Your task to perform on an android device: Search for hotels in Seattle Image 0: 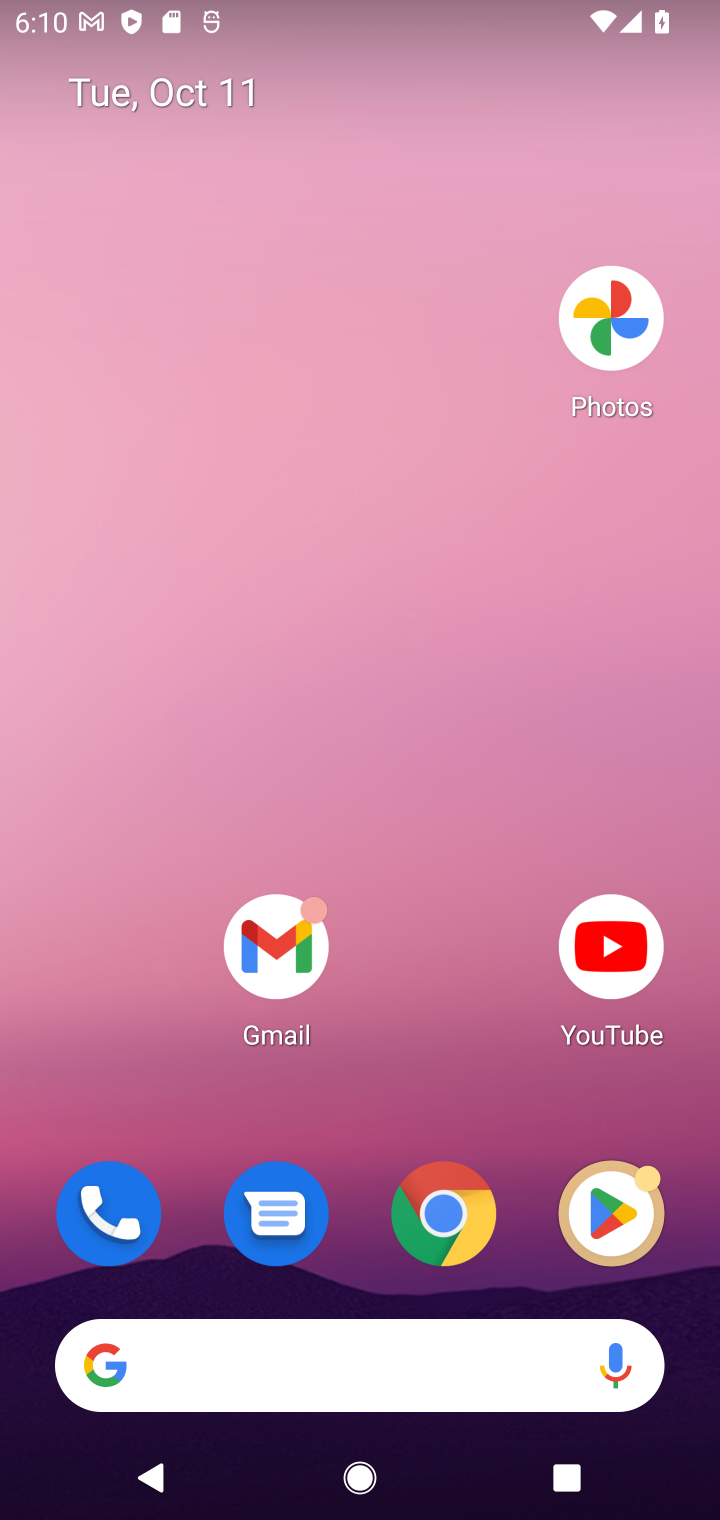
Step 0: click (443, 1232)
Your task to perform on an android device: Search for hotels in Seattle Image 1: 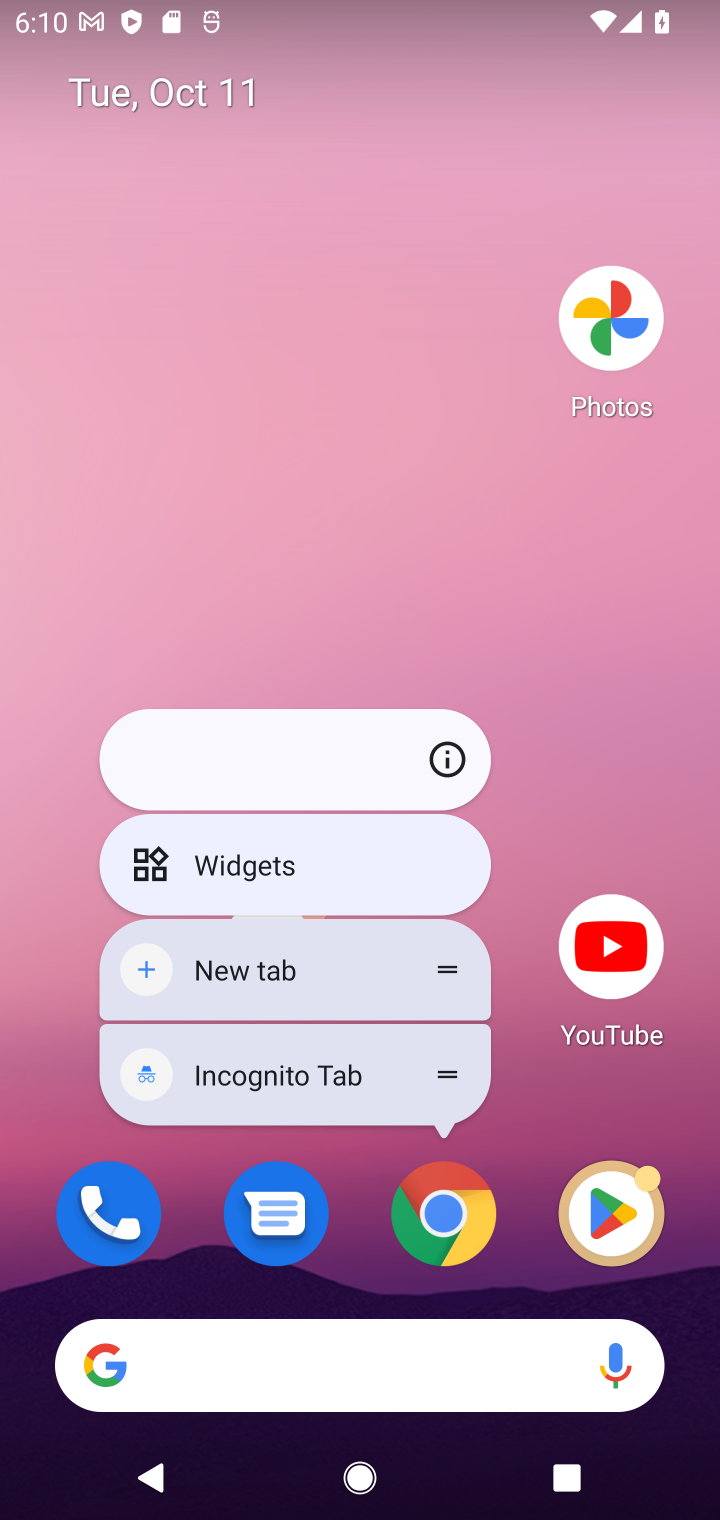
Step 1: click (471, 1259)
Your task to perform on an android device: Search for hotels in Seattle Image 2: 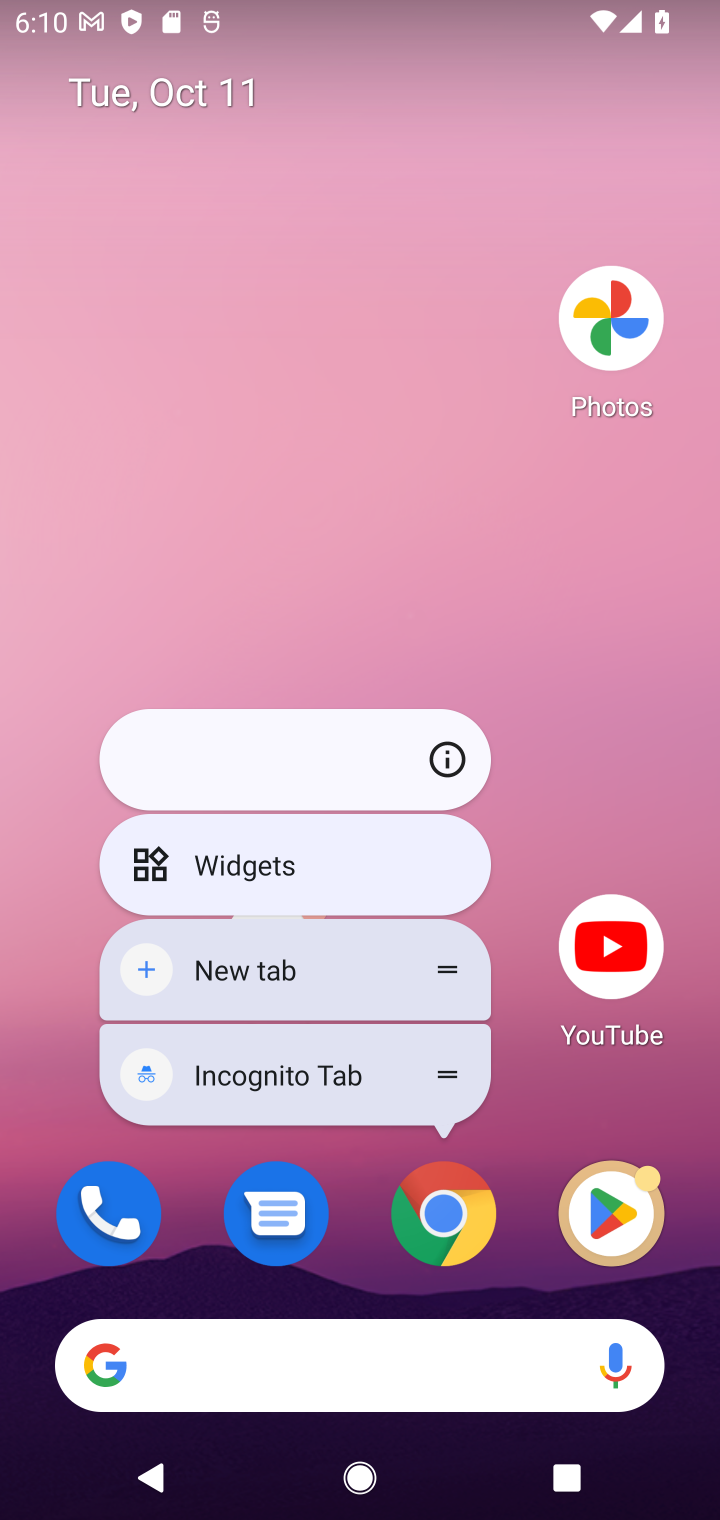
Step 2: click (444, 1245)
Your task to perform on an android device: Search for hotels in Seattle Image 3: 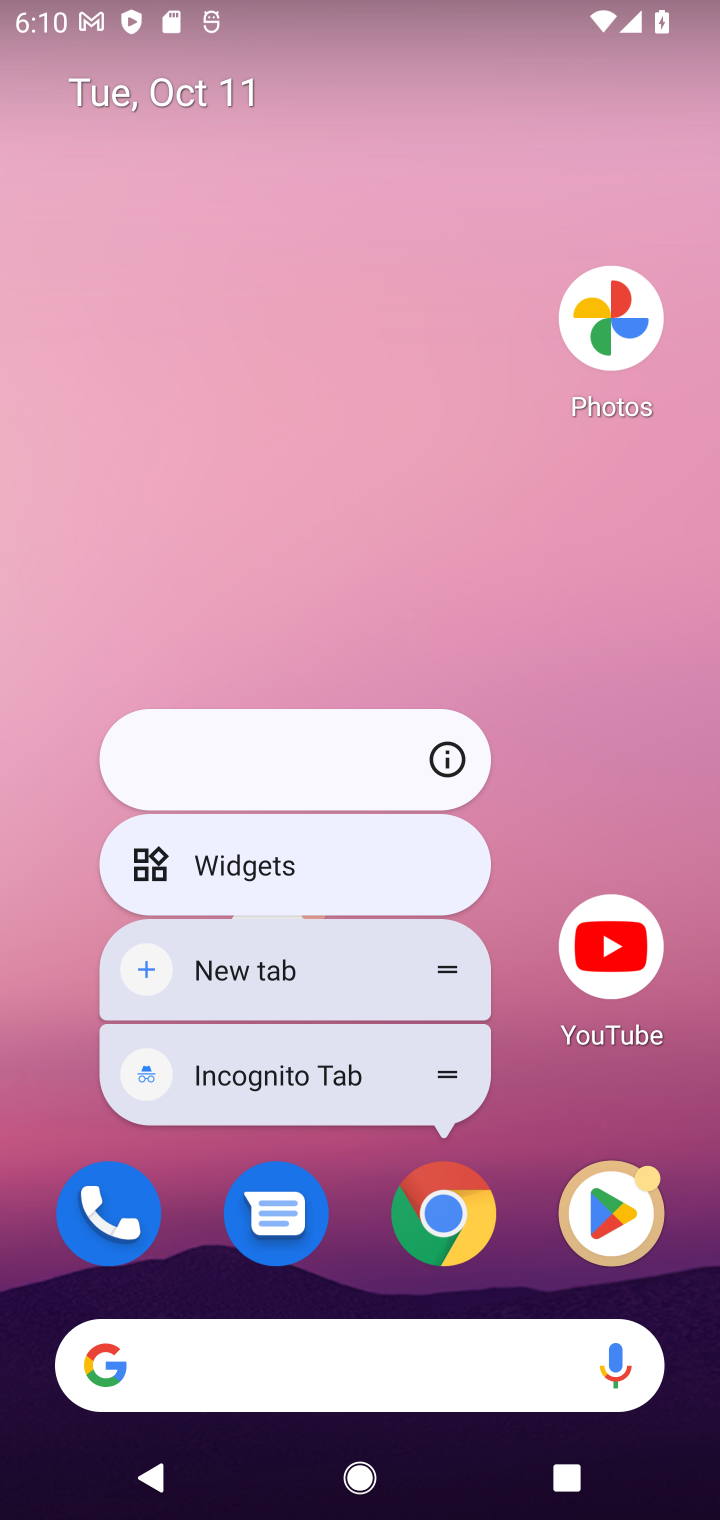
Step 3: click (380, 1312)
Your task to perform on an android device: Search for hotels in Seattle Image 4: 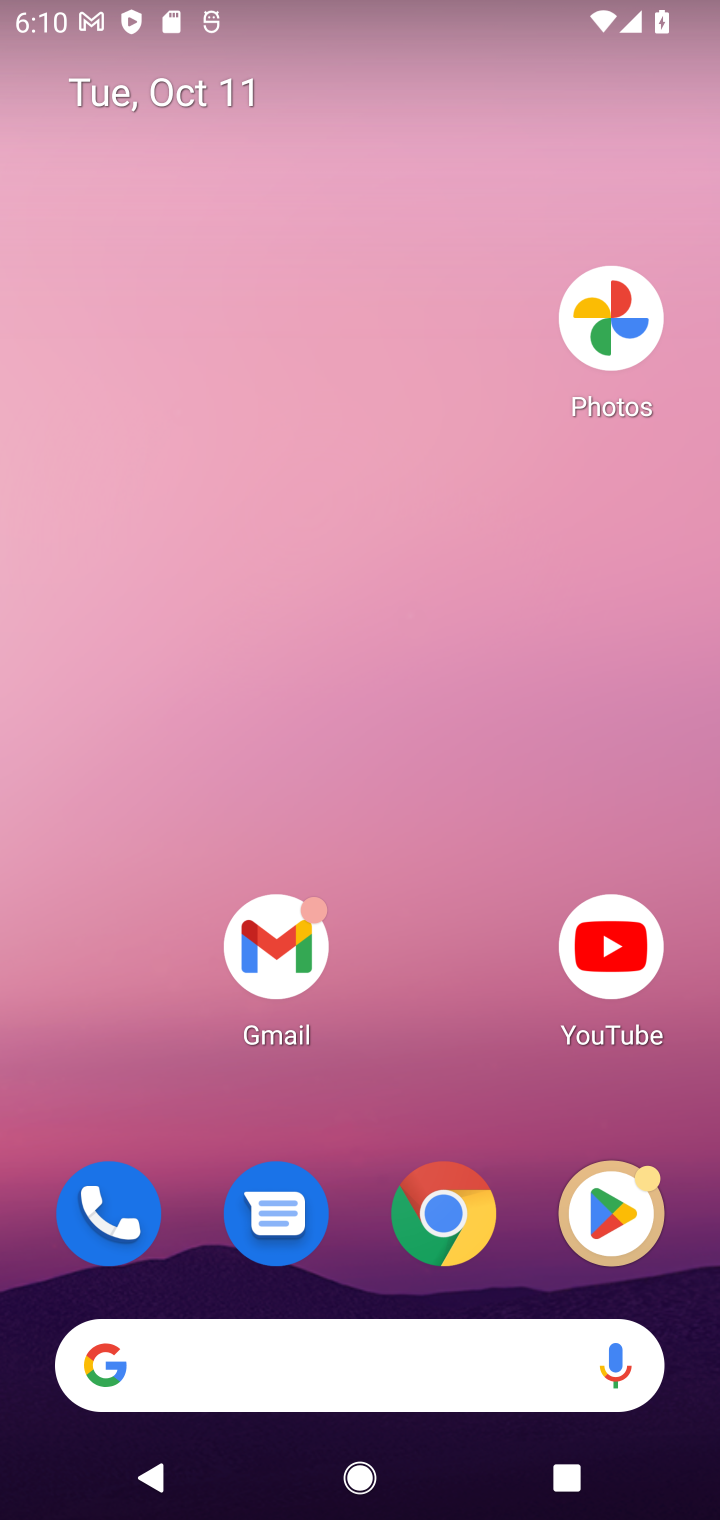
Step 4: drag from (388, 1201) to (503, 21)
Your task to perform on an android device: Search for hotels in Seattle Image 5: 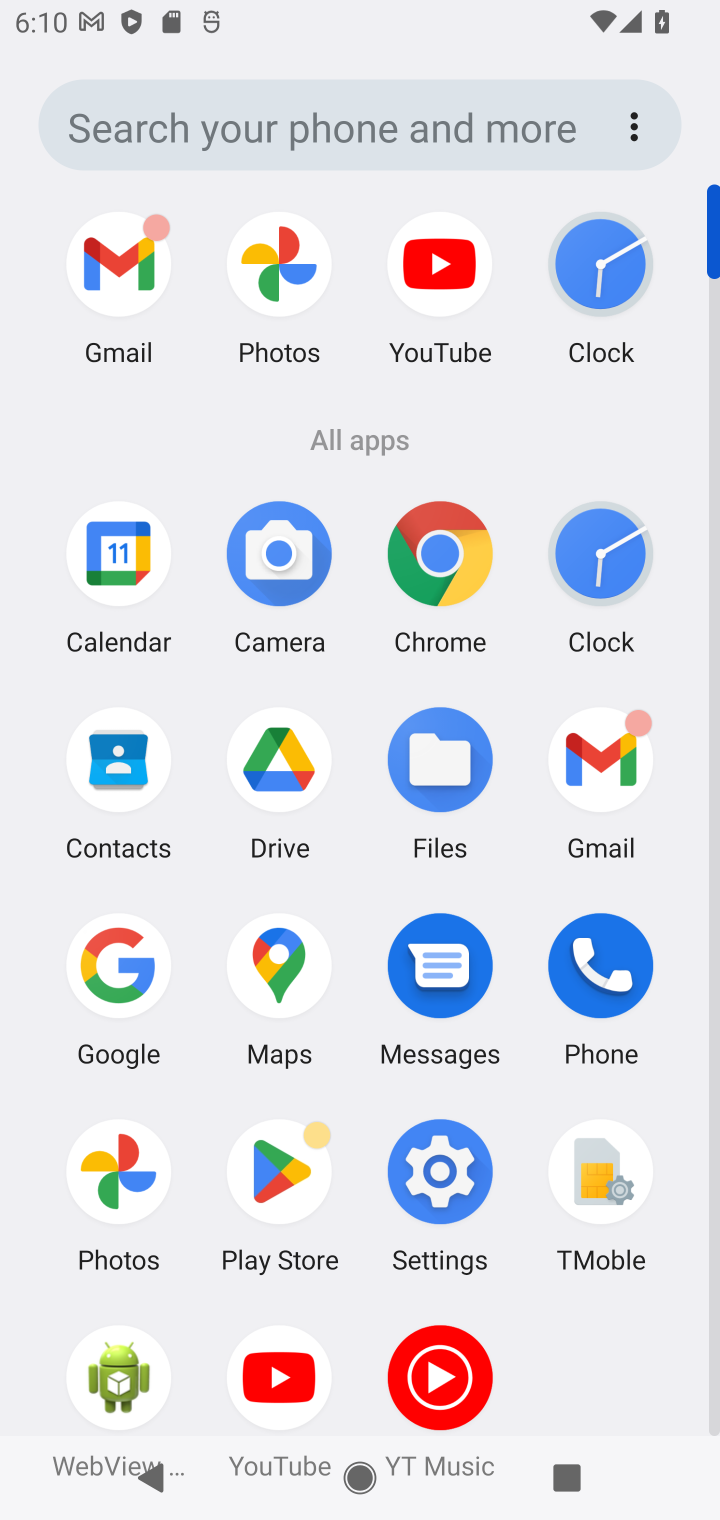
Step 5: click (436, 554)
Your task to perform on an android device: Search for hotels in Seattle Image 6: 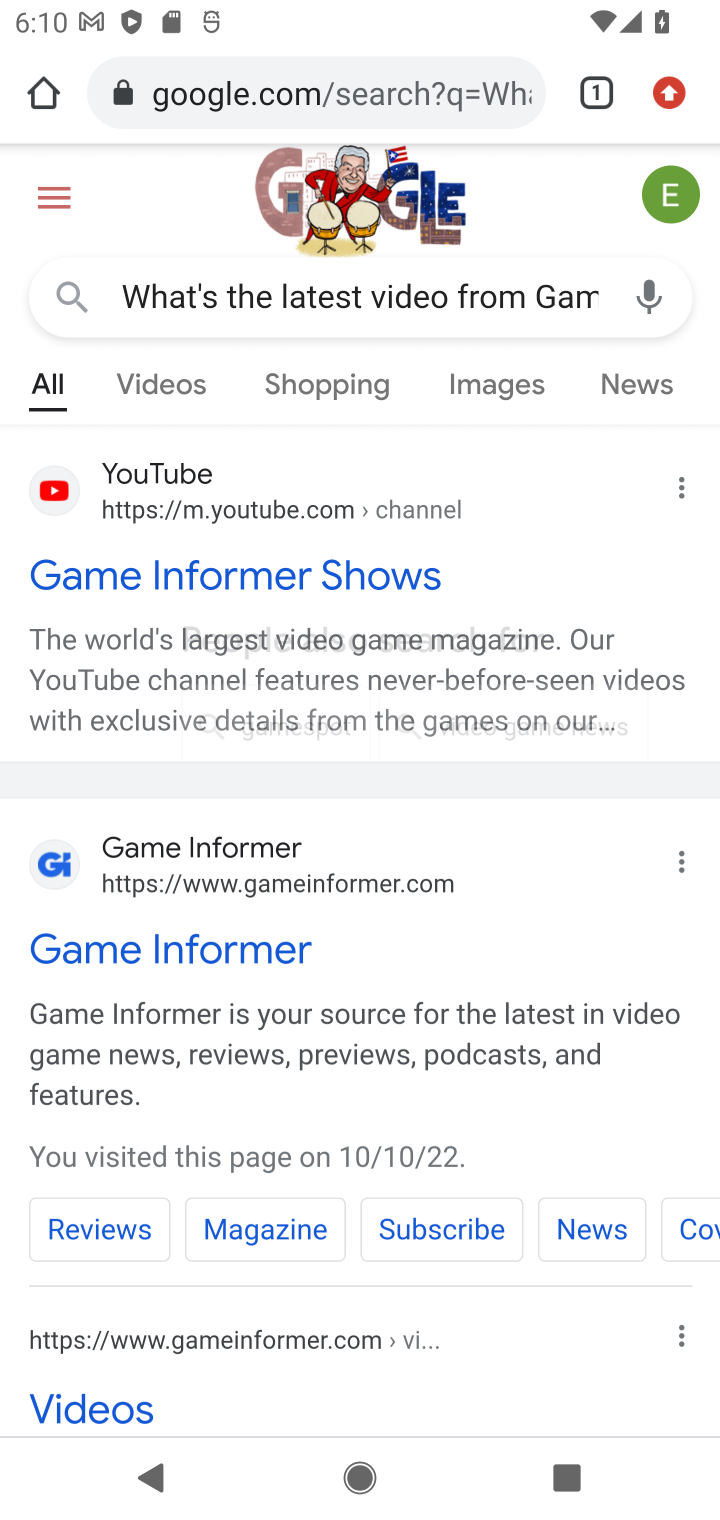
Step 6: click (319, 101)
Your task to perform on an android device: Search for hotels in Seattle Image 7: 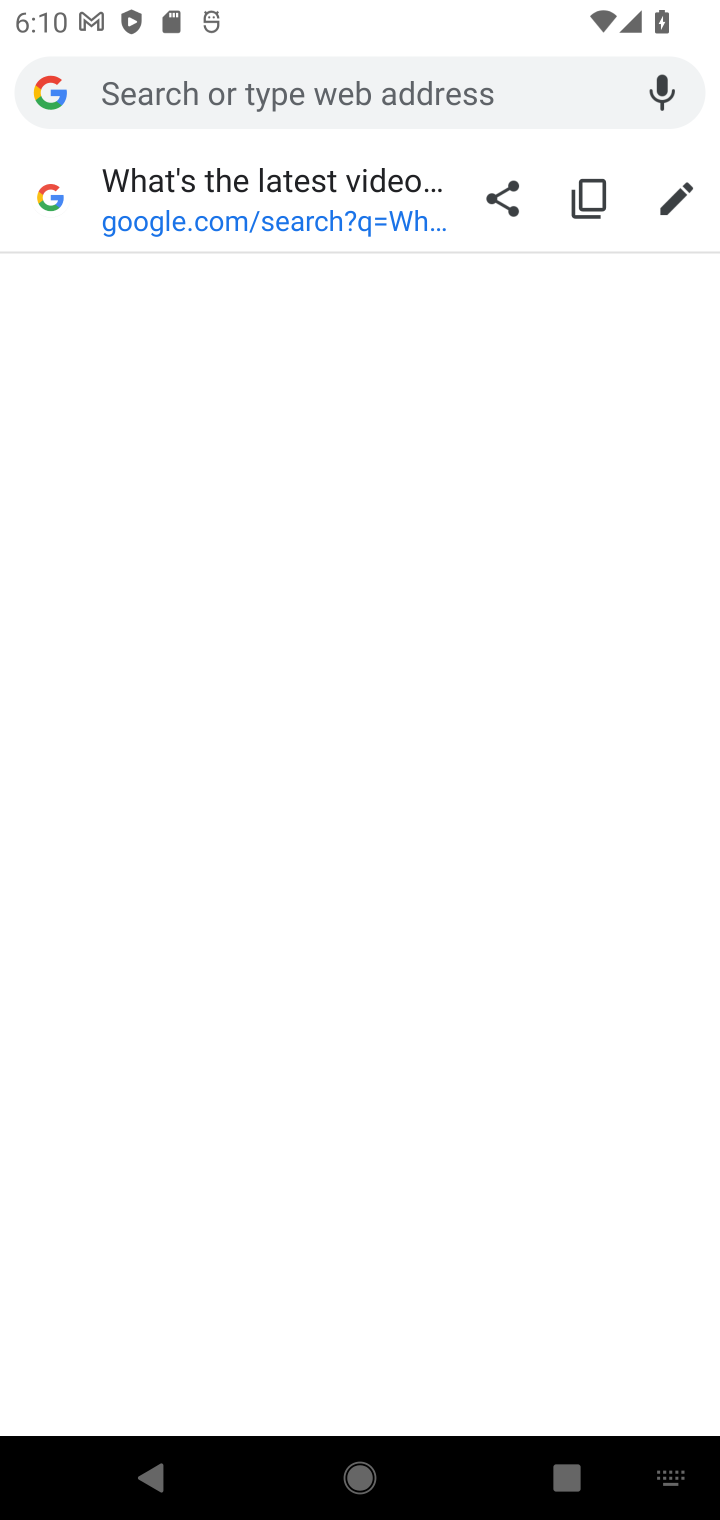
Step 7: type ""
Your task to perform on an android device: Search for hotels in Seattle Image 8: 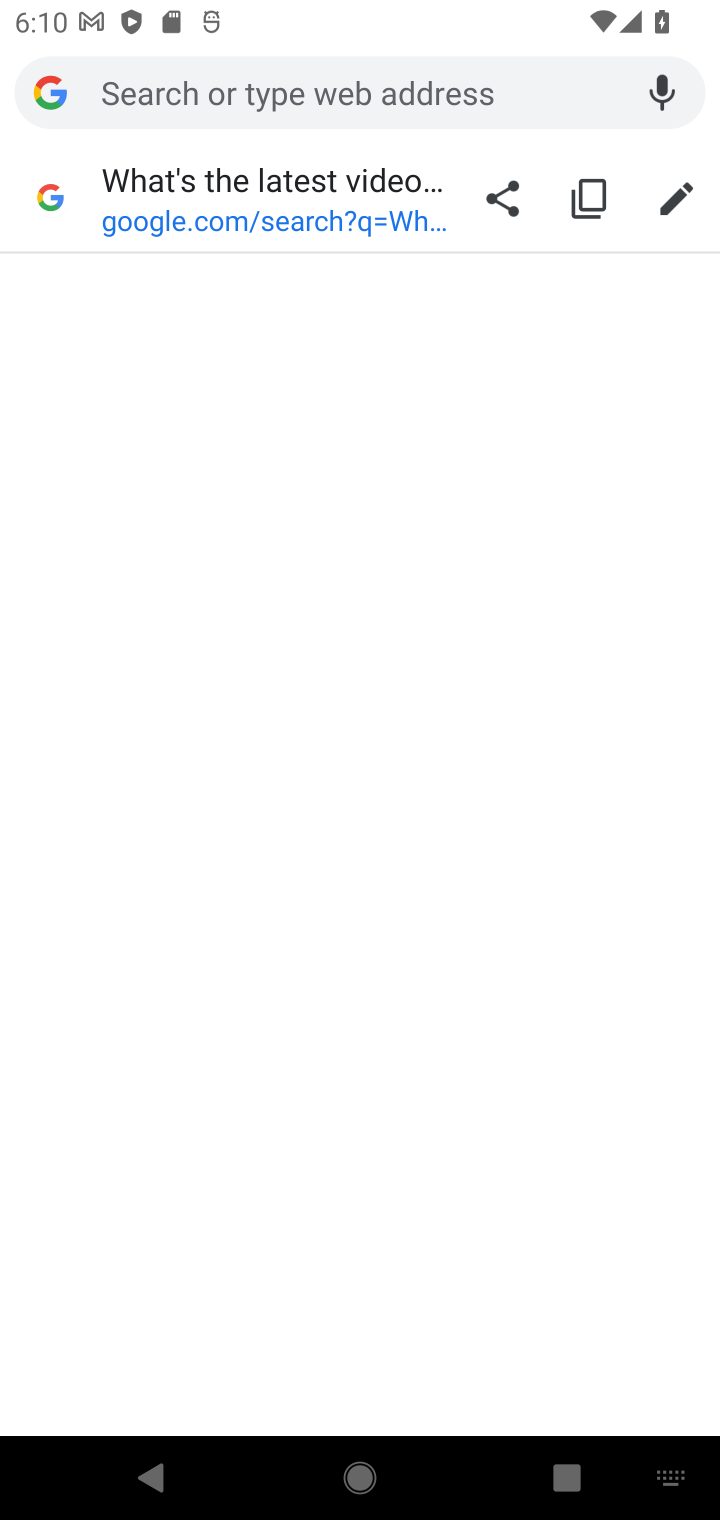
Step 8: type "hotels in Seattle"
Your task to perform on an android device: Search for hotels in Seattle Image 9: 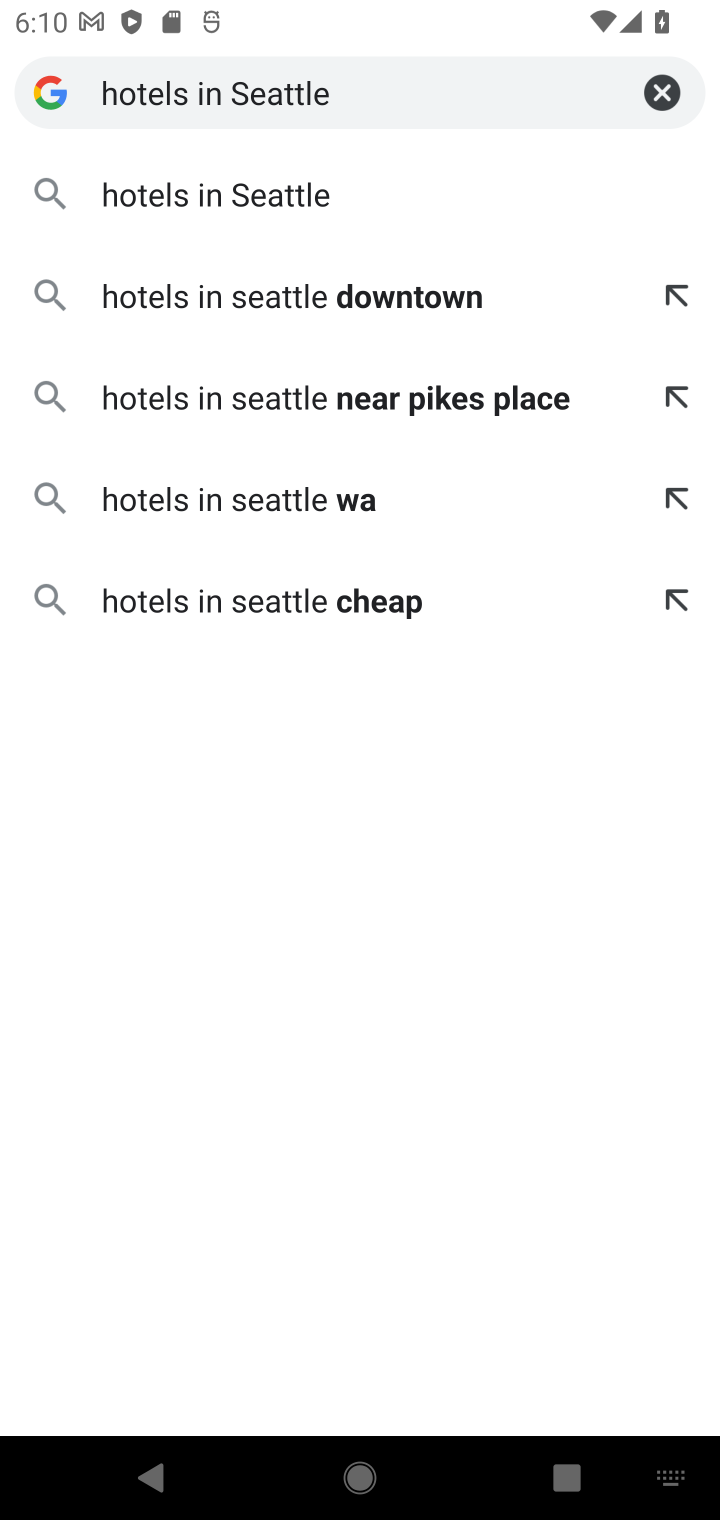
Step 9: click (291, 191)
Your task to perform on an android device: Search for hotels in Seattle Image 10: 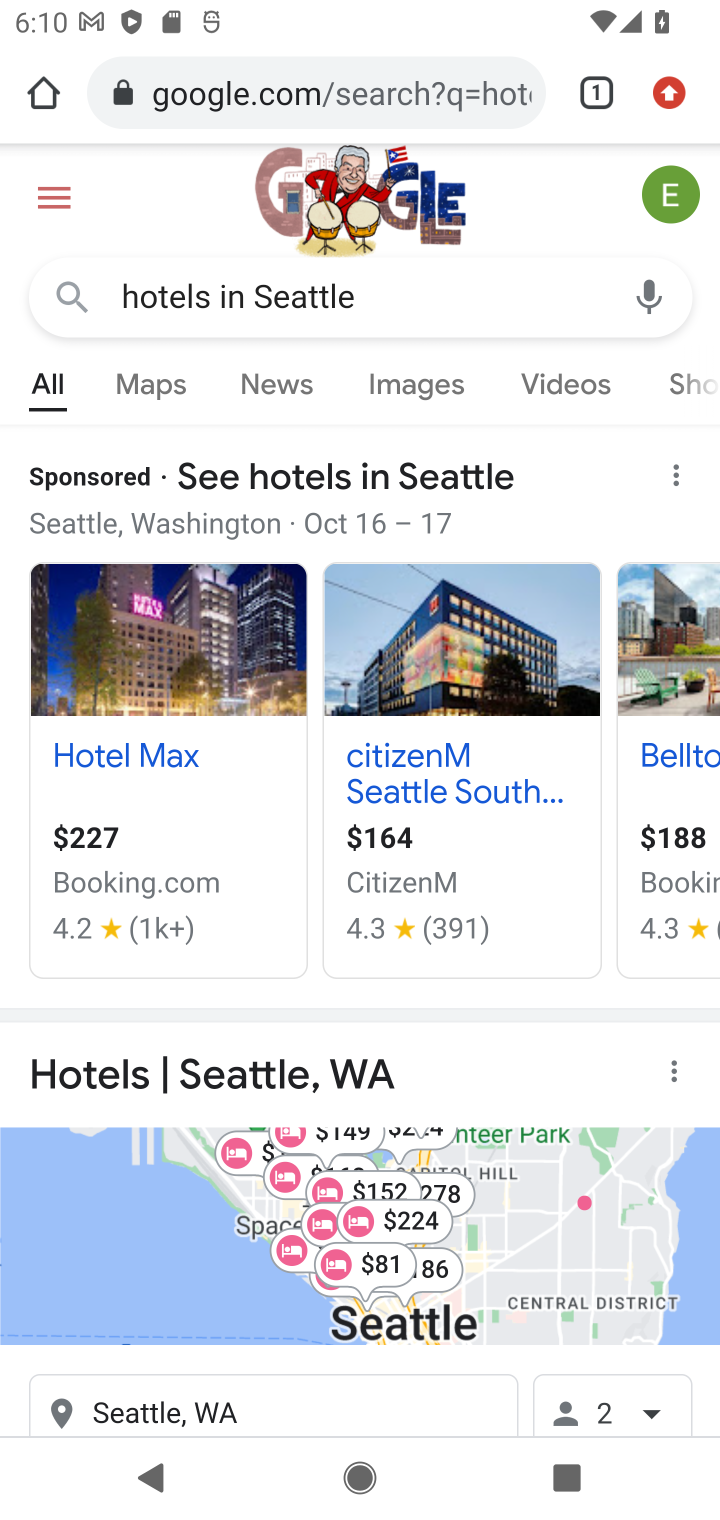
Step 10: drag from (247, 1048) to (261, 373)
Your task to perform on an android device: Search for hotels in Seattle Image 11: 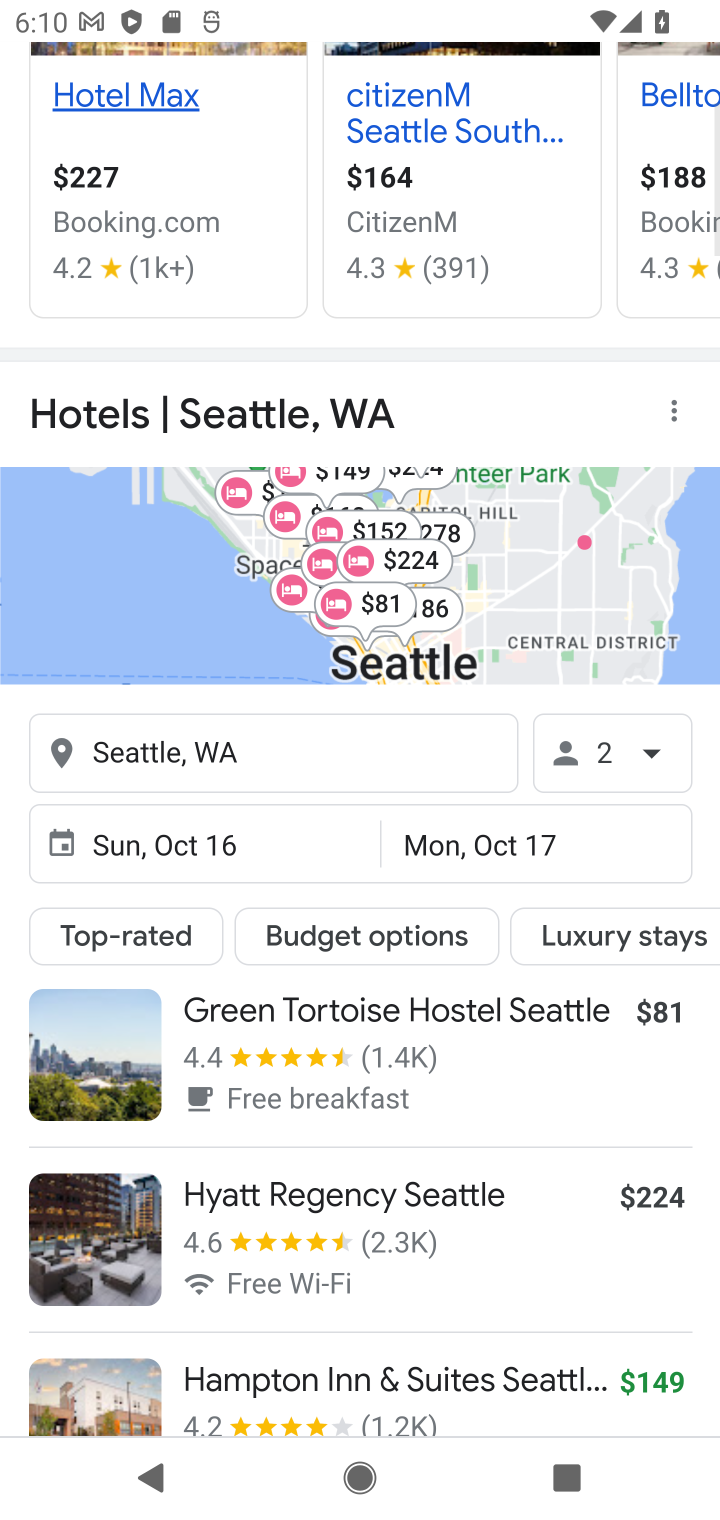
Step 11: click (266, 1002)
Your task to perform on an android device: Search for hotels in Seattle Image 12: 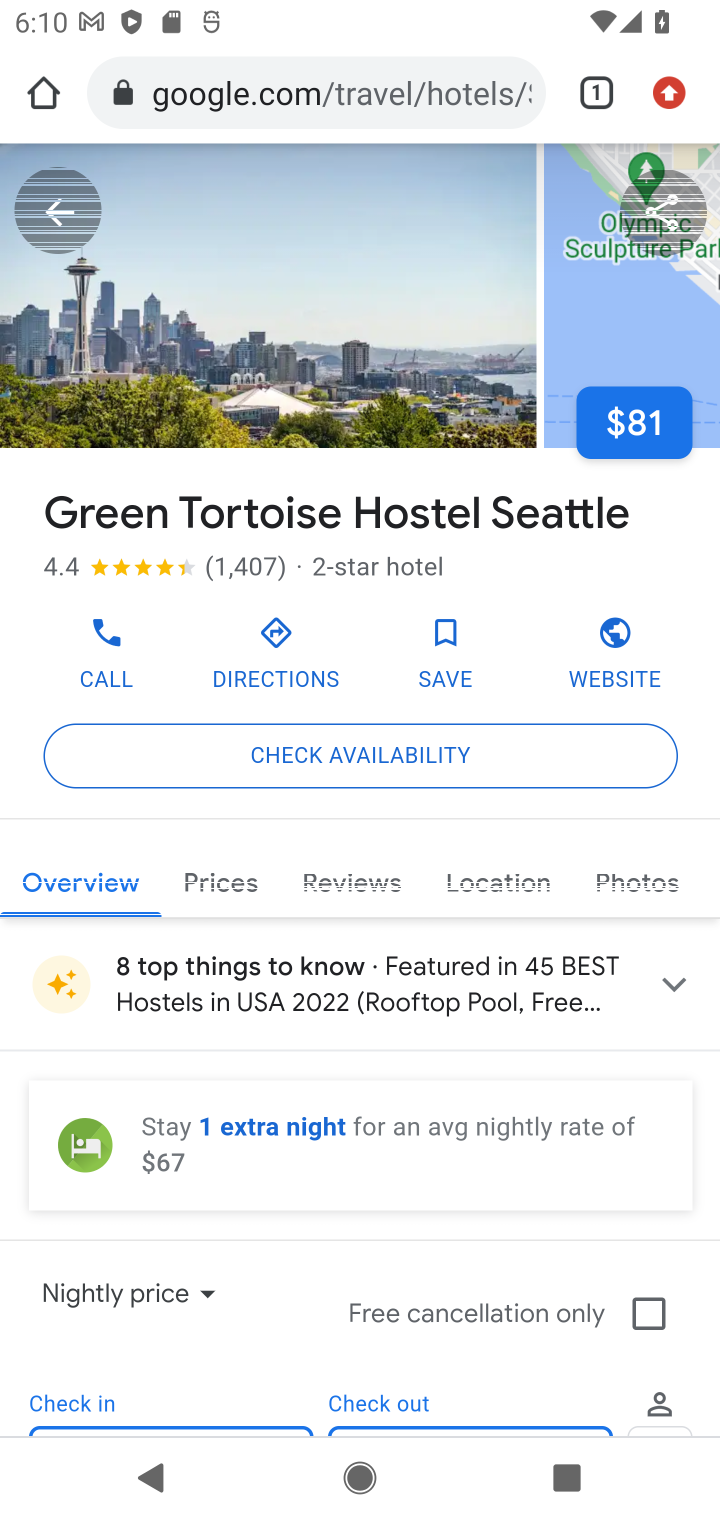
Step 12: drag from (448, 1149) to (471, 512)
Your task to perform on an android device: Search for hotels in Seattle Image 13: 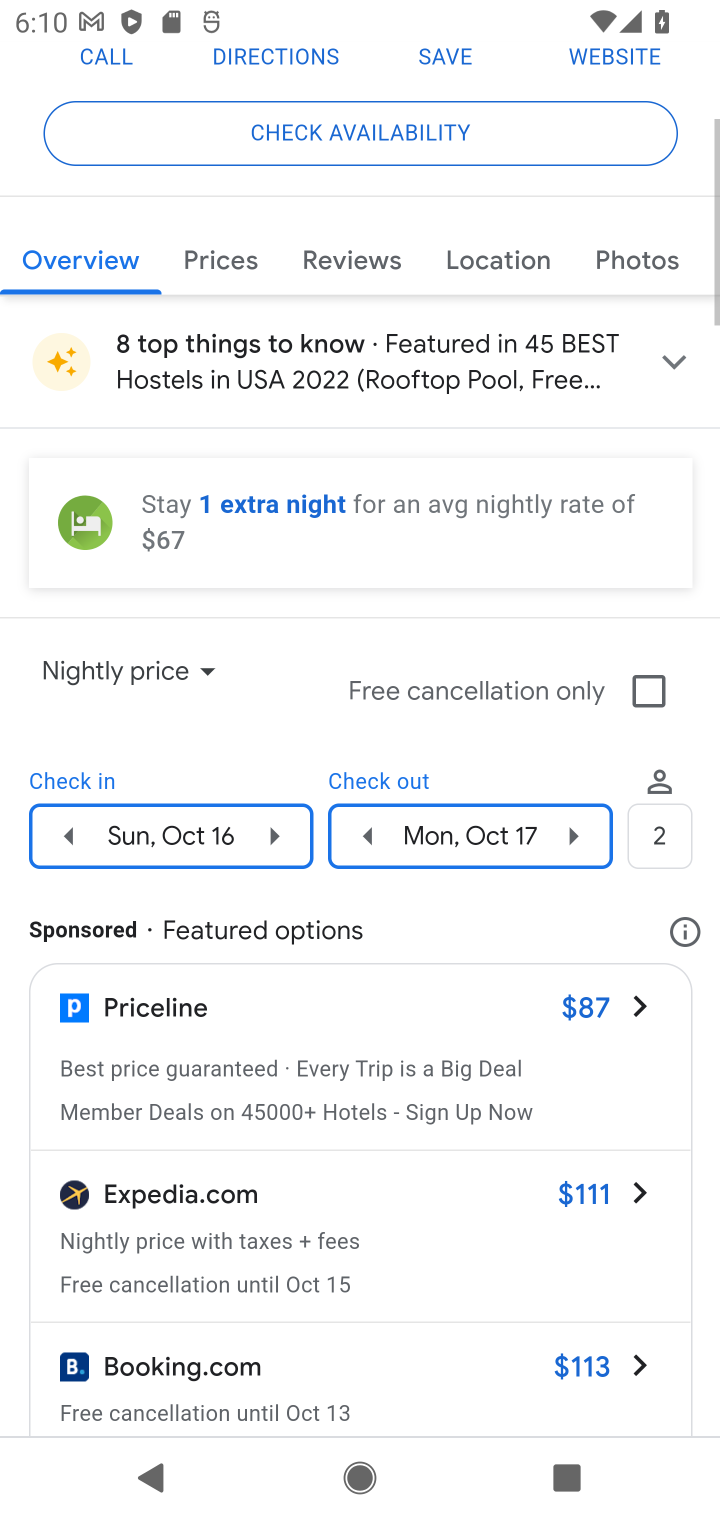
Step 13: drag from (395, 223) to (464, 498)
Your task to perform on an android device: Search for hotels in Seattle Image 14: 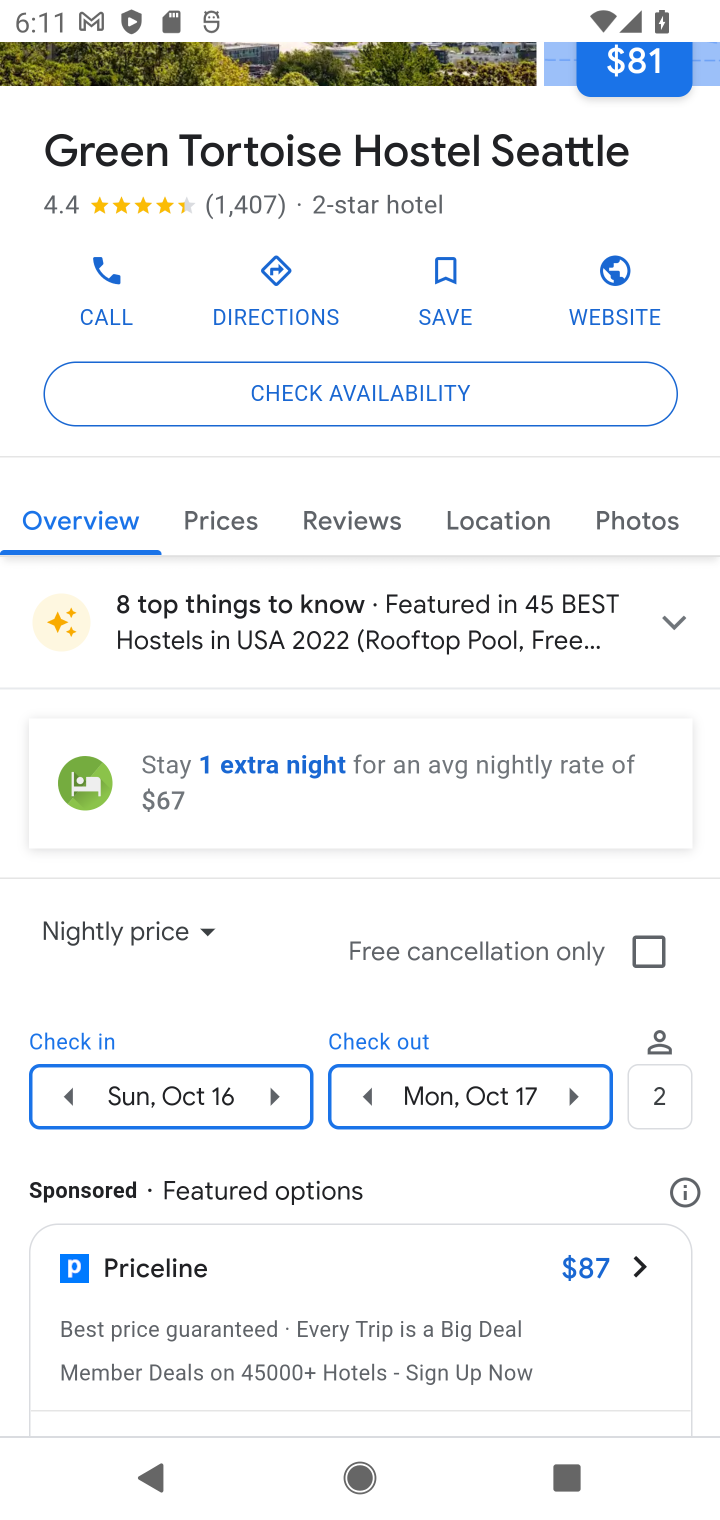
Step 14: drag from (433, 598) to (414, 1197)
Your task to perform on an android device: Search for hotels in Seattle Image 15: 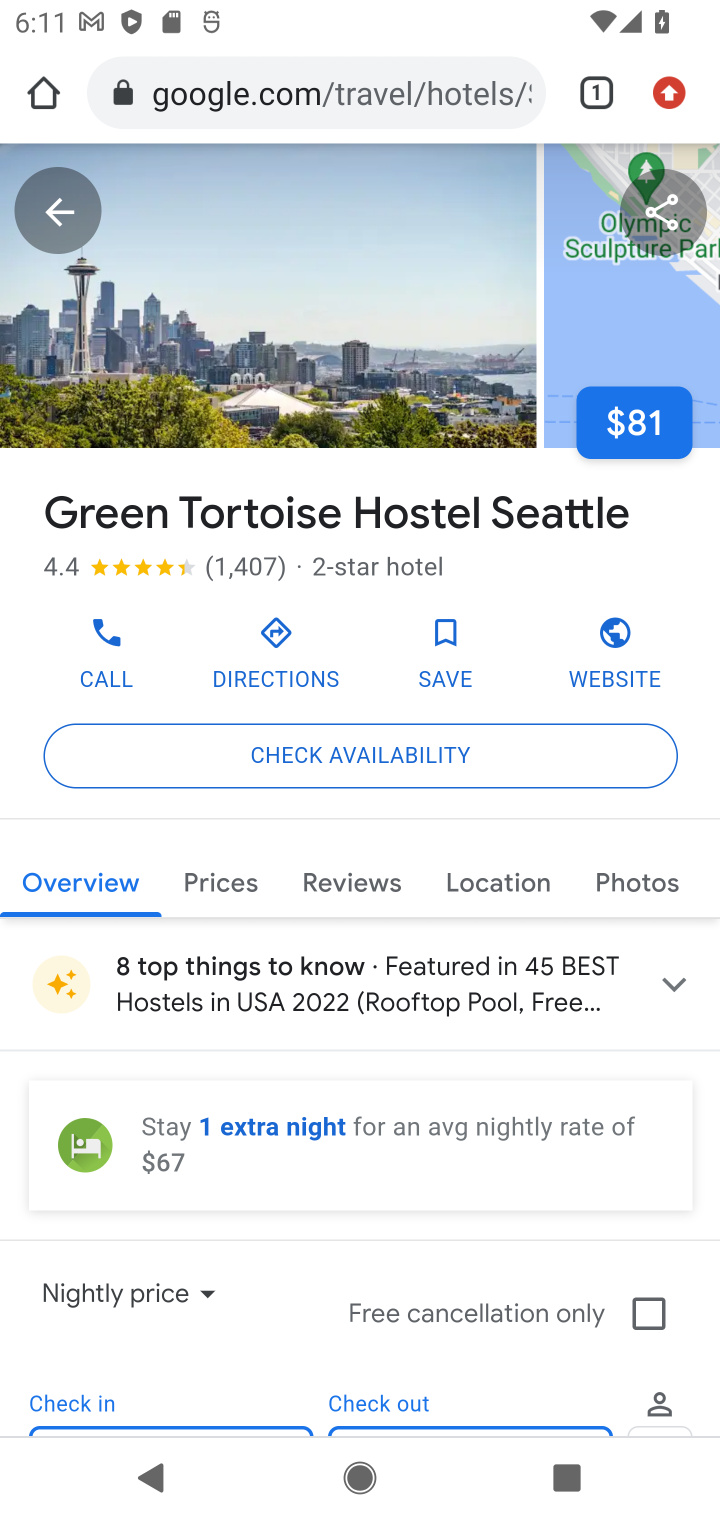
Step 15: click (293, 1336)
Your task to perform on an android device: Search for hotels in Seattle Image 16: 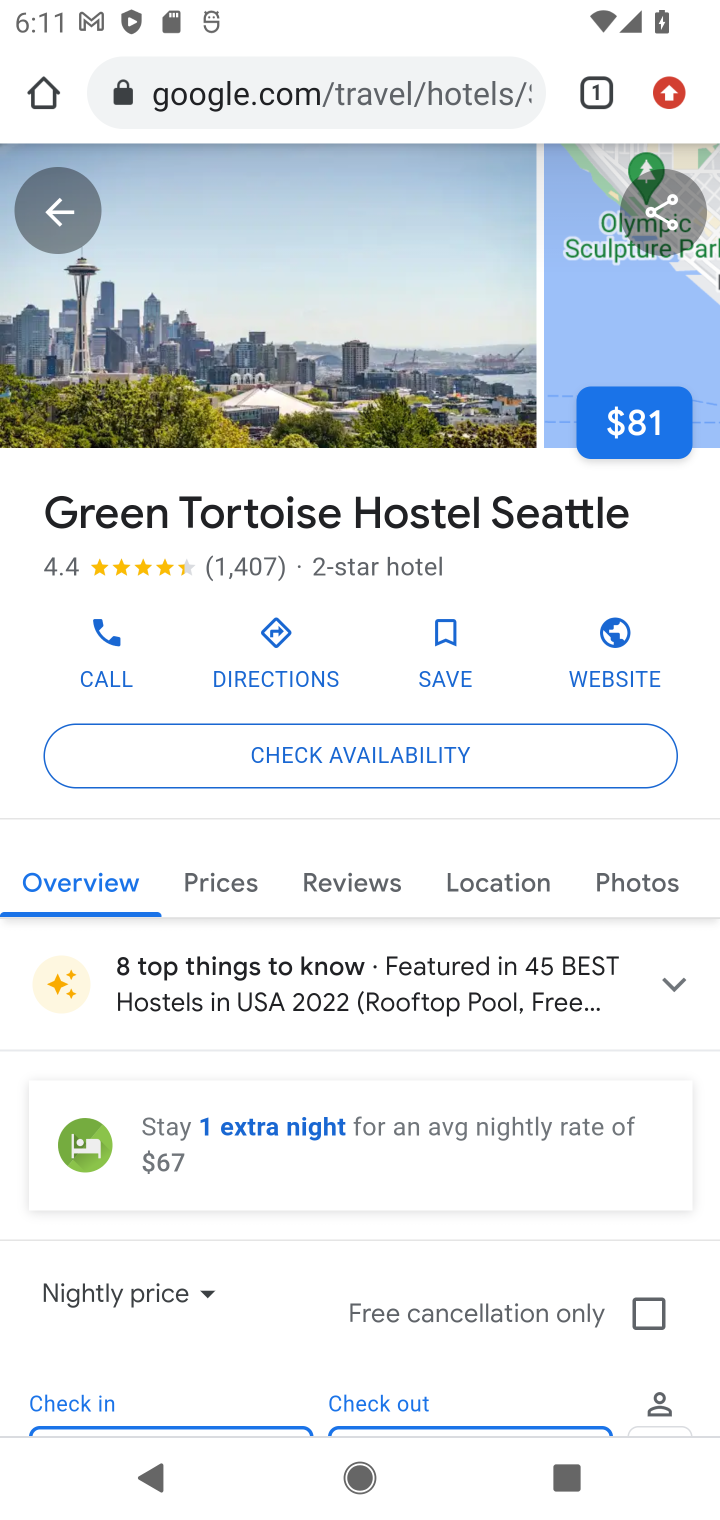
Step 16: drag from (496, 453) to (11, 436)
Your task to perform on an android device: Search for hotels in Seattle Image 17: 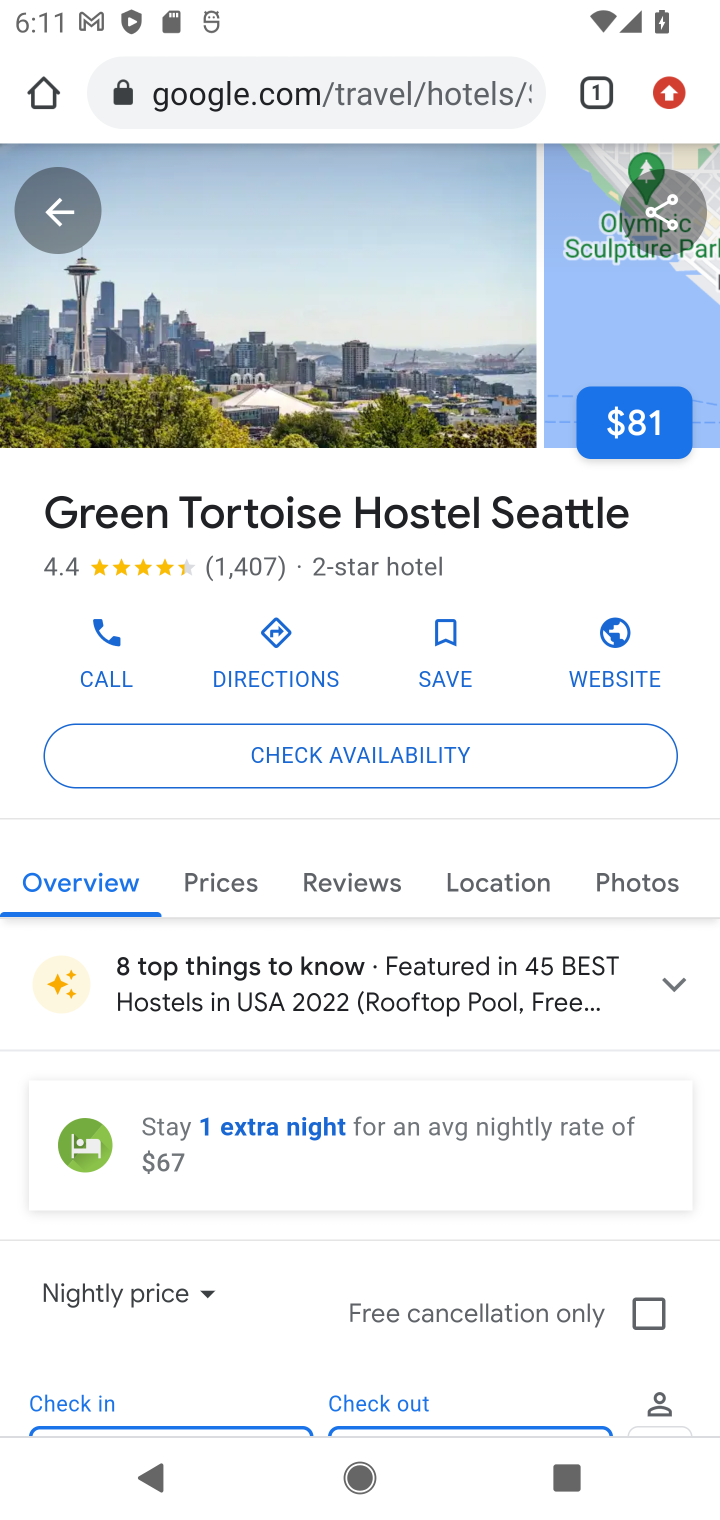
Step 17: drag from (49, 349) to (130, 365)
Your task to perform on an android device: Search for hotels in Seattle Image 18: 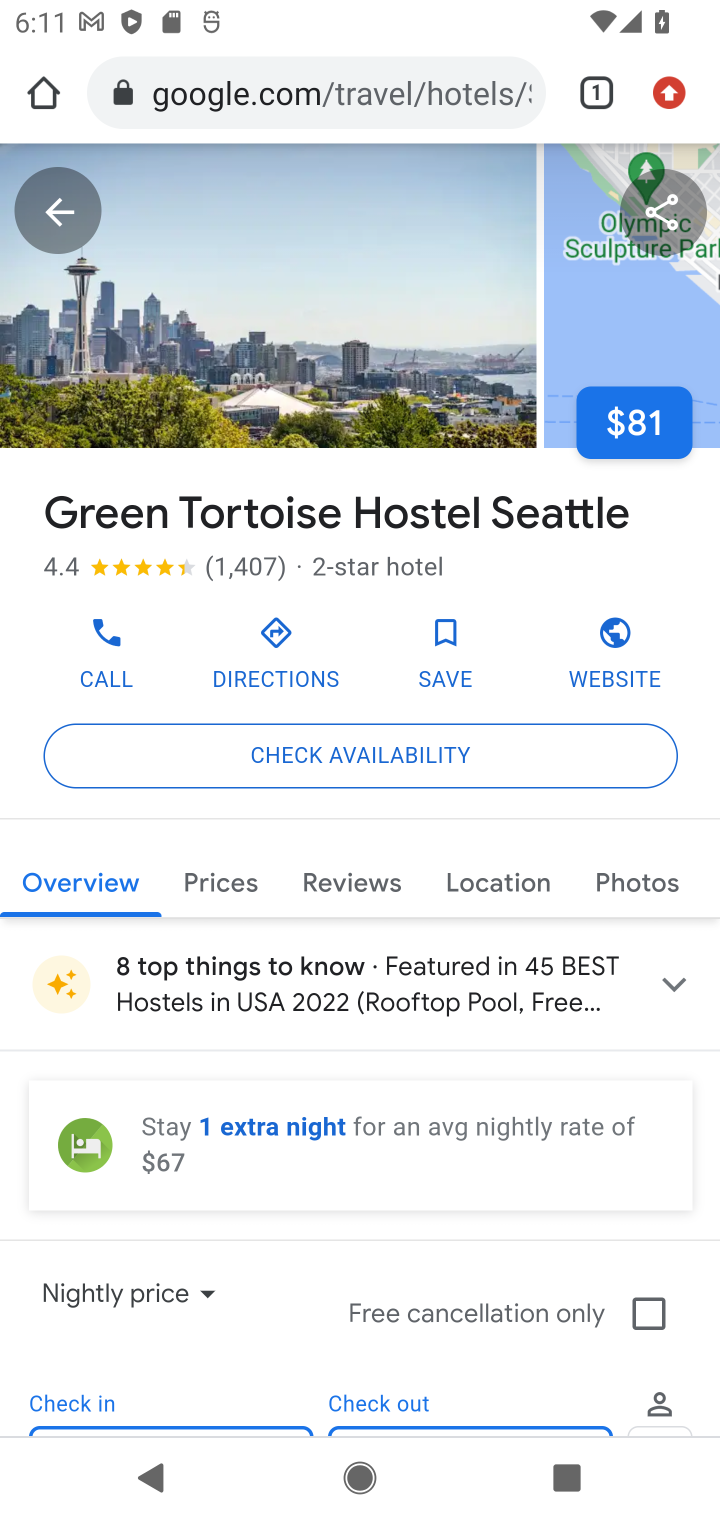
Step 18: drag from (357, 337) to (75, 344)
Your task to perform on an android device: Search for hotels in Seattle Image 19: 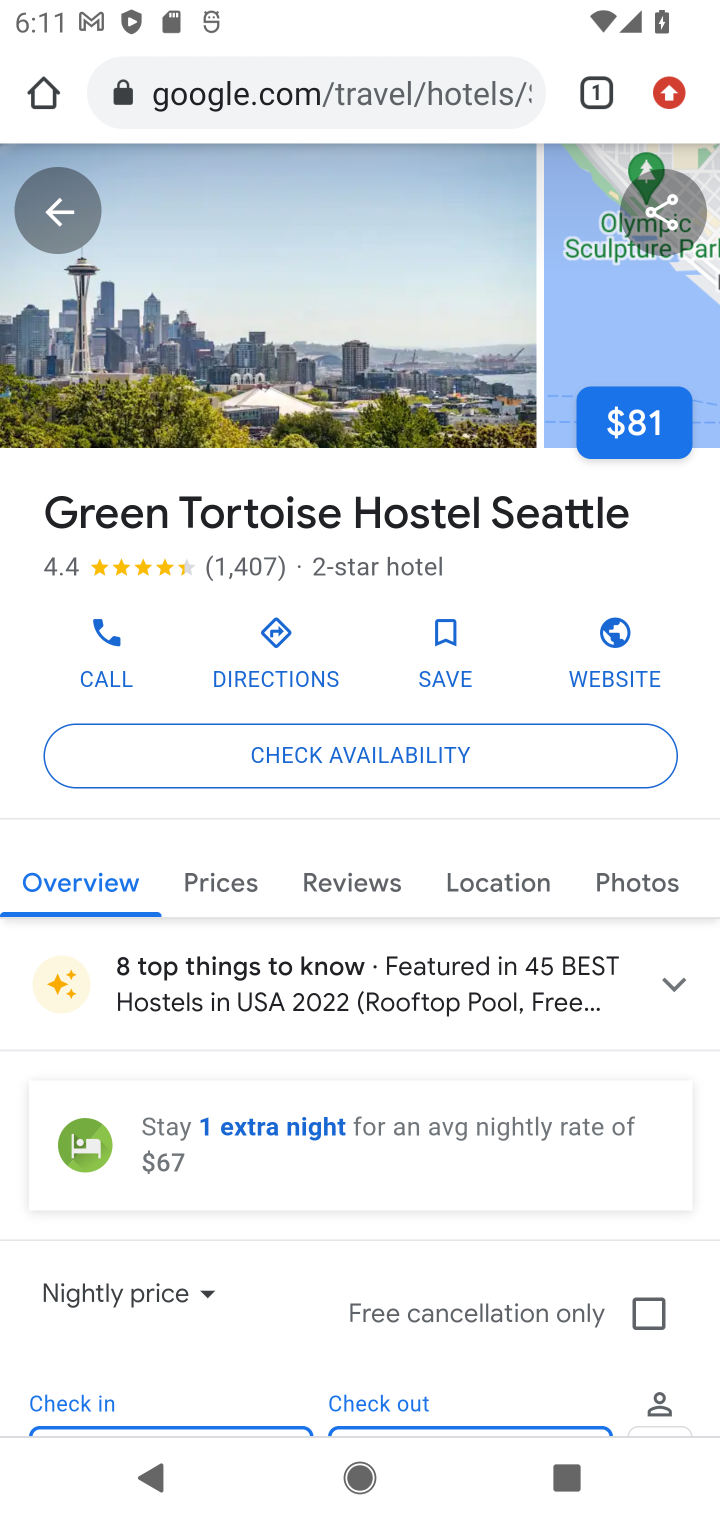
Step 19: drag from (334, 337) to (111, 342)
Your task to perform on an android device: Search for hotels in Seattle Image 20: 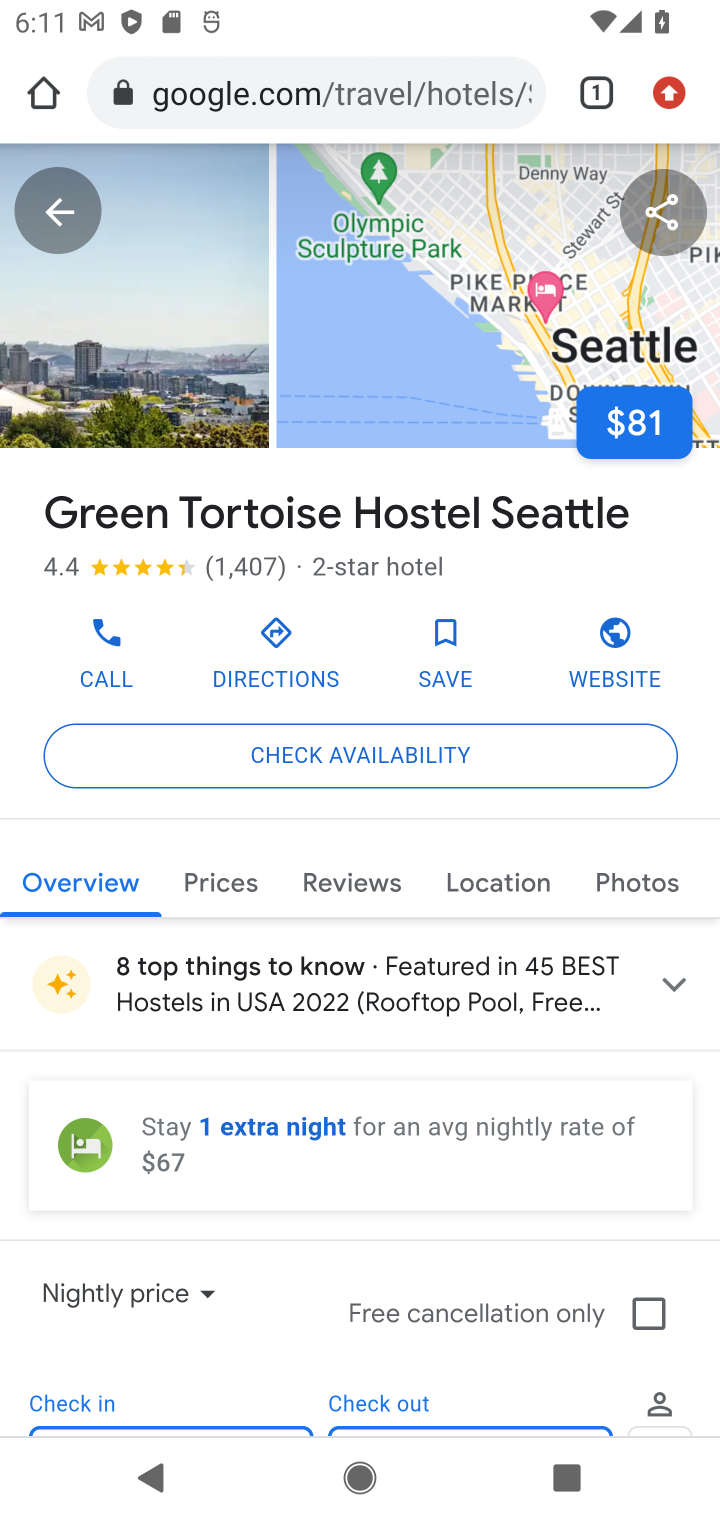
Step 20: drag from (540, 304) to (178, 303)
Your task to perform on an android device: Search for hotels in Seattle Image 21: 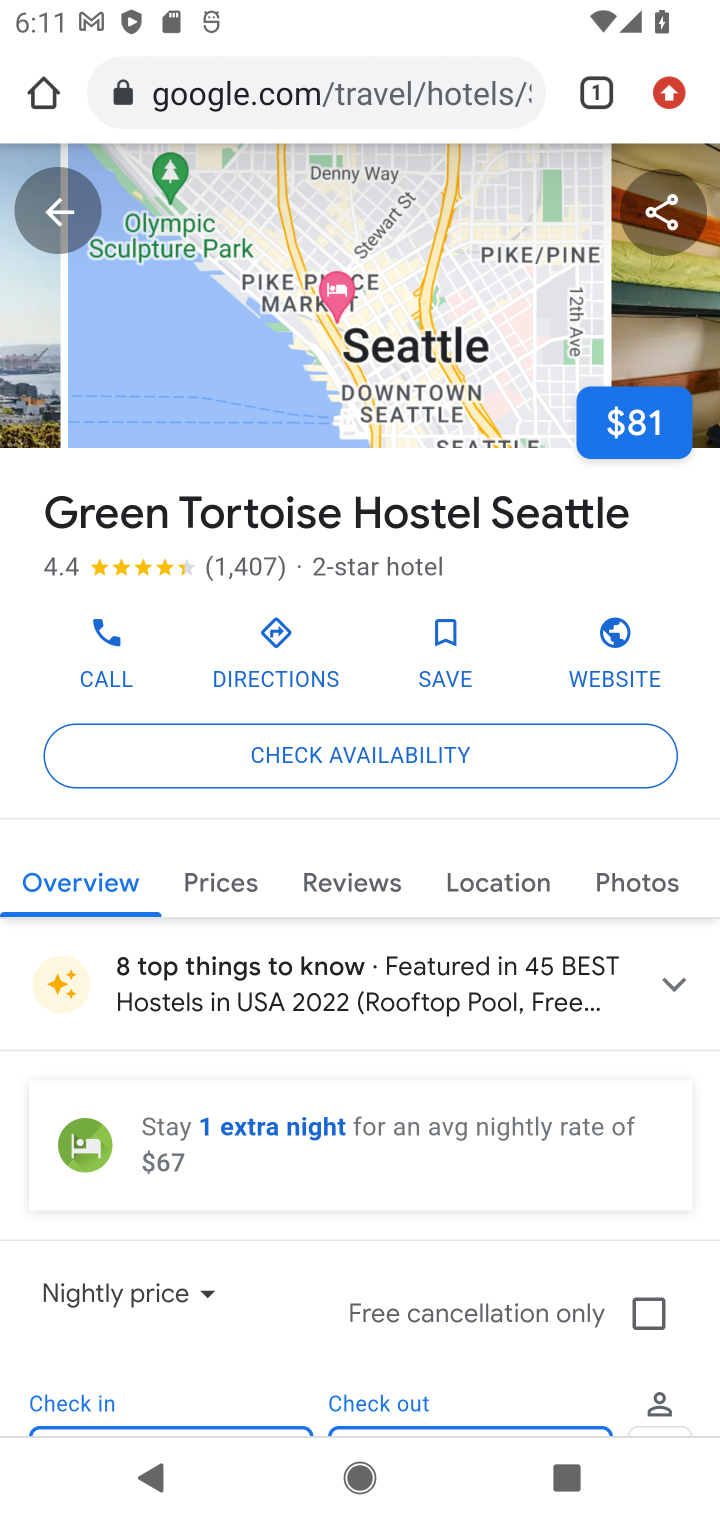
Step 21: drag from (525, 310) to (162, 298)
Your task to perform on an android device: Search for hotels in Seattle Image 22: 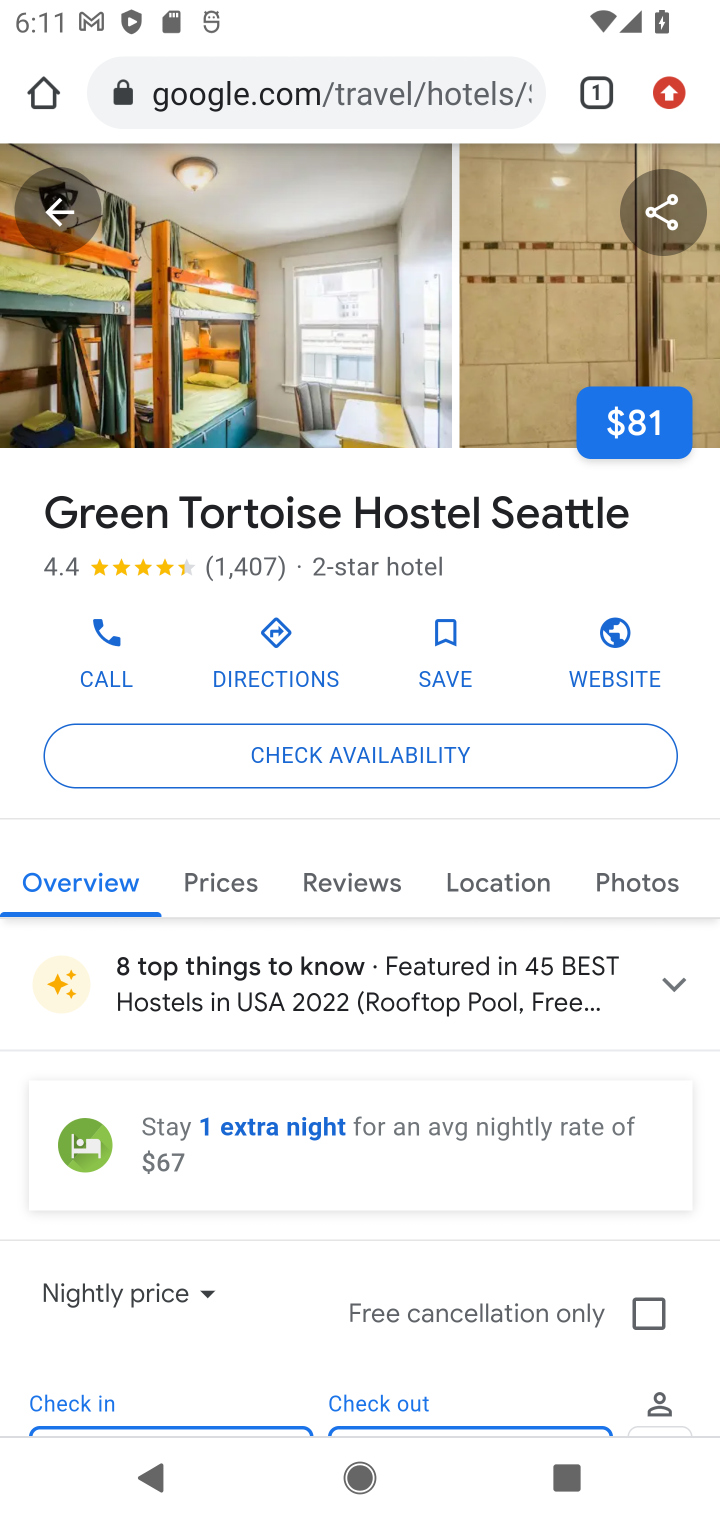
Step 22: click (150, 243)
Your task to perform on an android device: Search for hotels in Seattle Image 23: 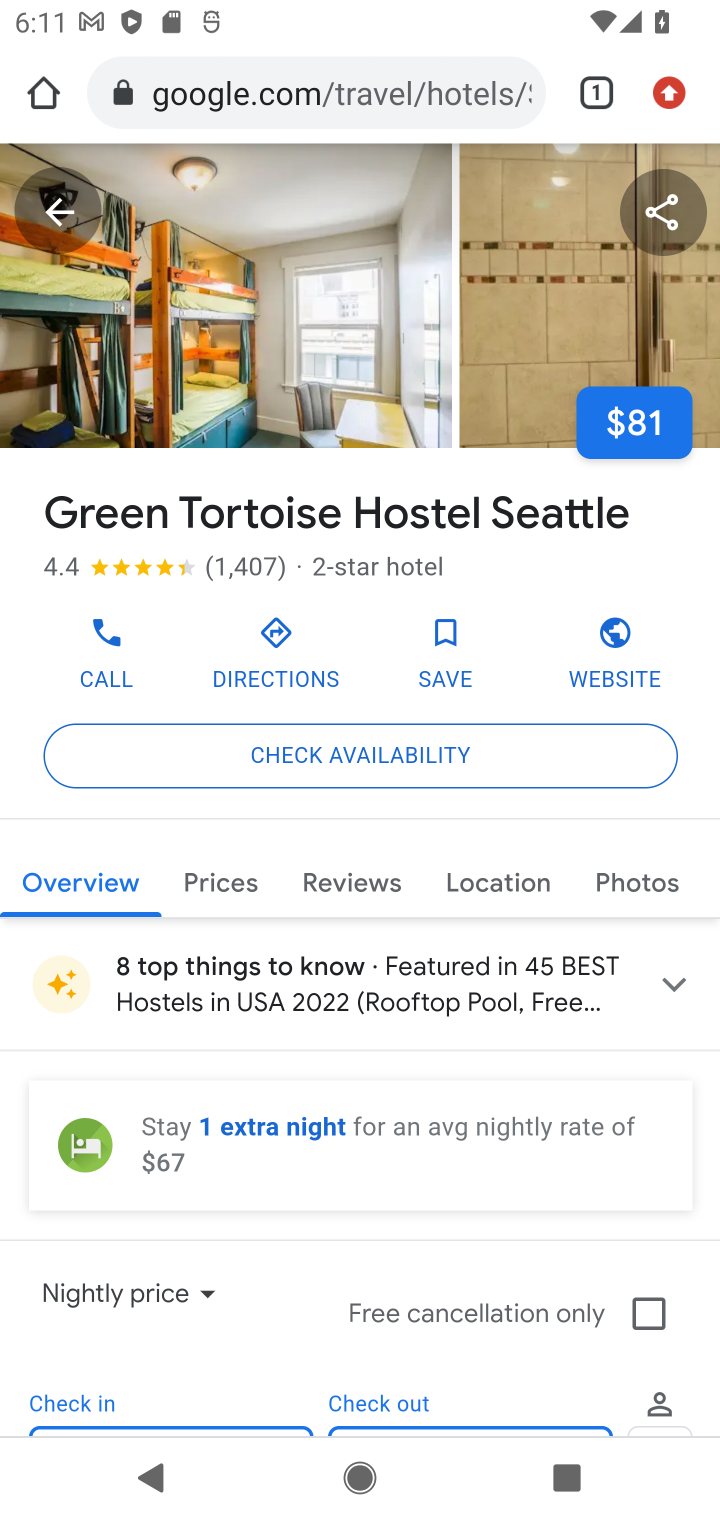
Step 23: click (67, 265)
Your task to perform on an android device: Search for hotels in Seattle Image 24: 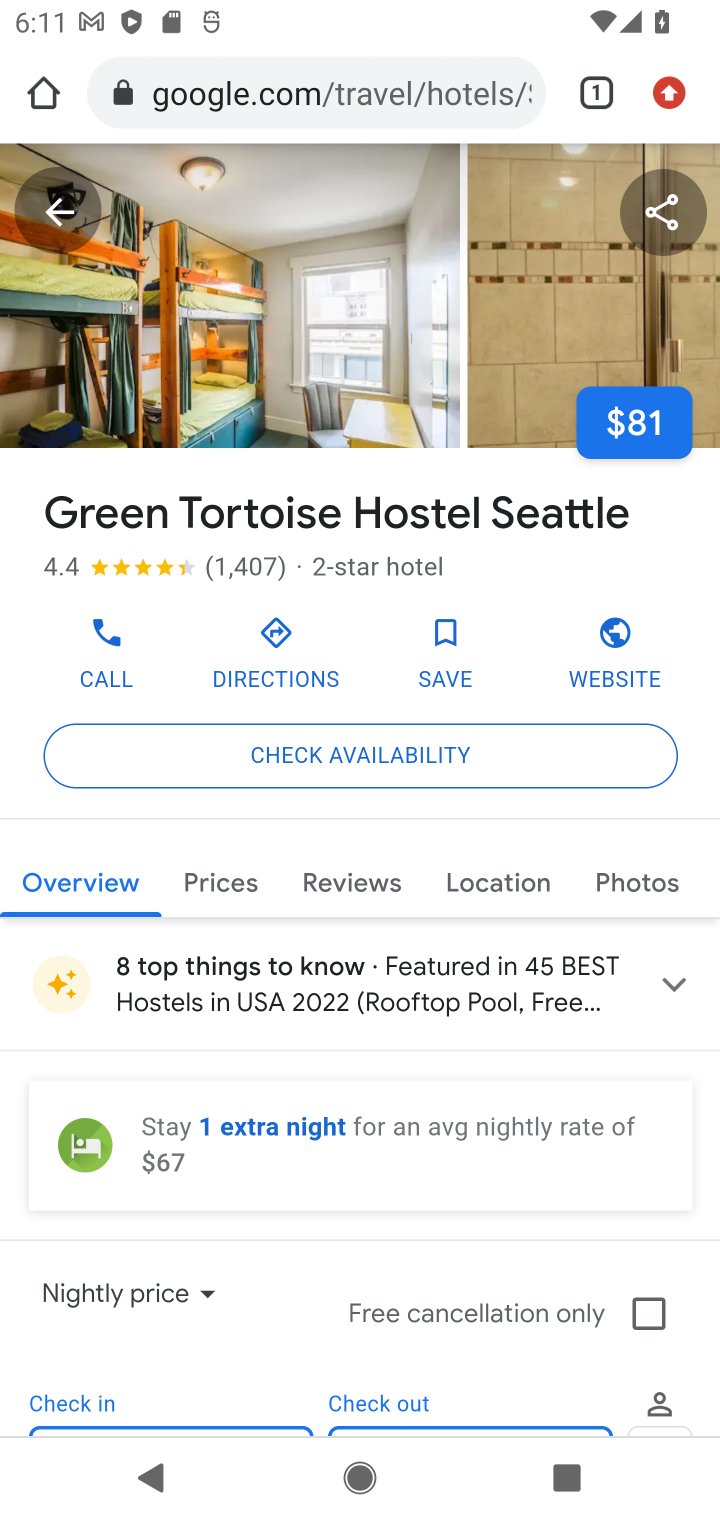
Step 24: drag from (351, 341) to (243, 336)
Your task to perform on an android device: Search for hotels in Seattle Image 25: 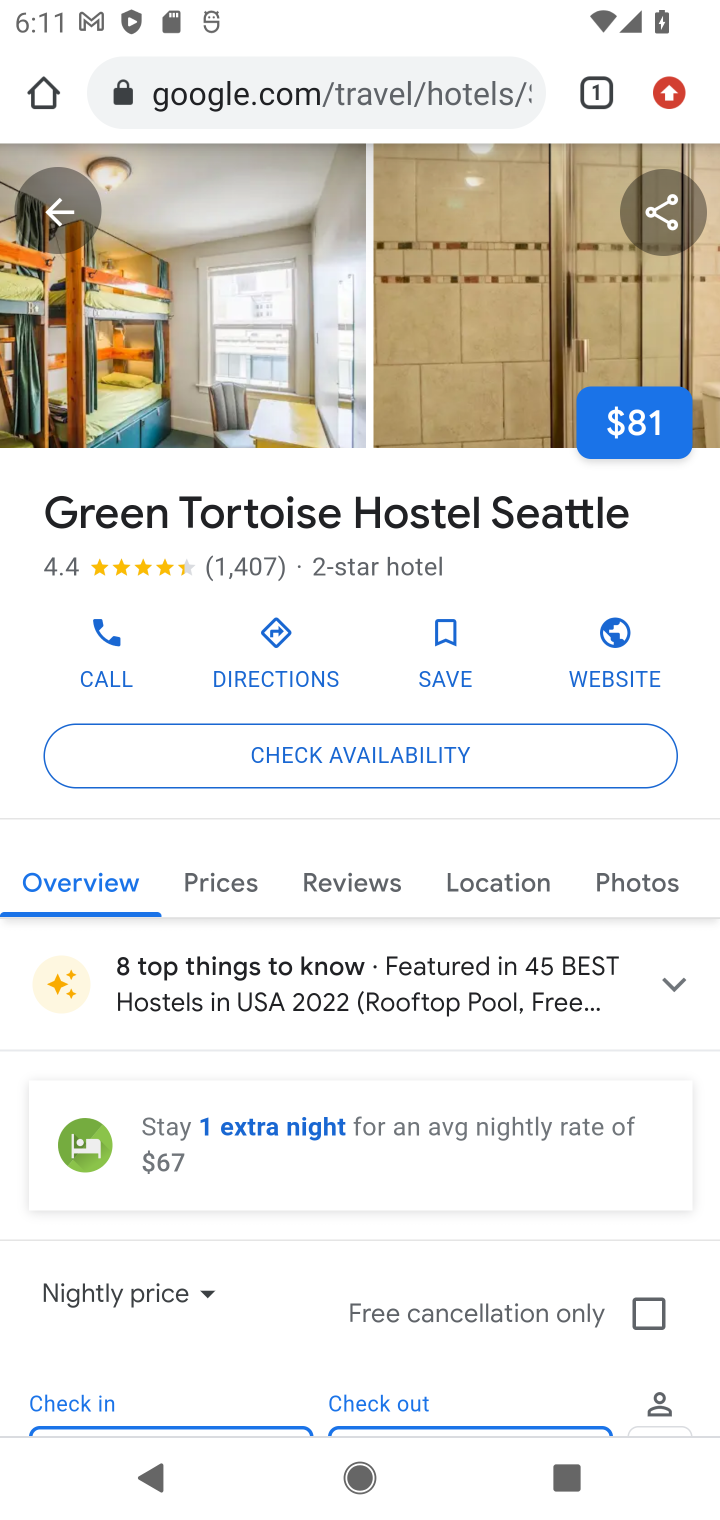
Step 25: click (284, 367)
Your task to perform on an android device: Search for hotels in Seattle Image 26: 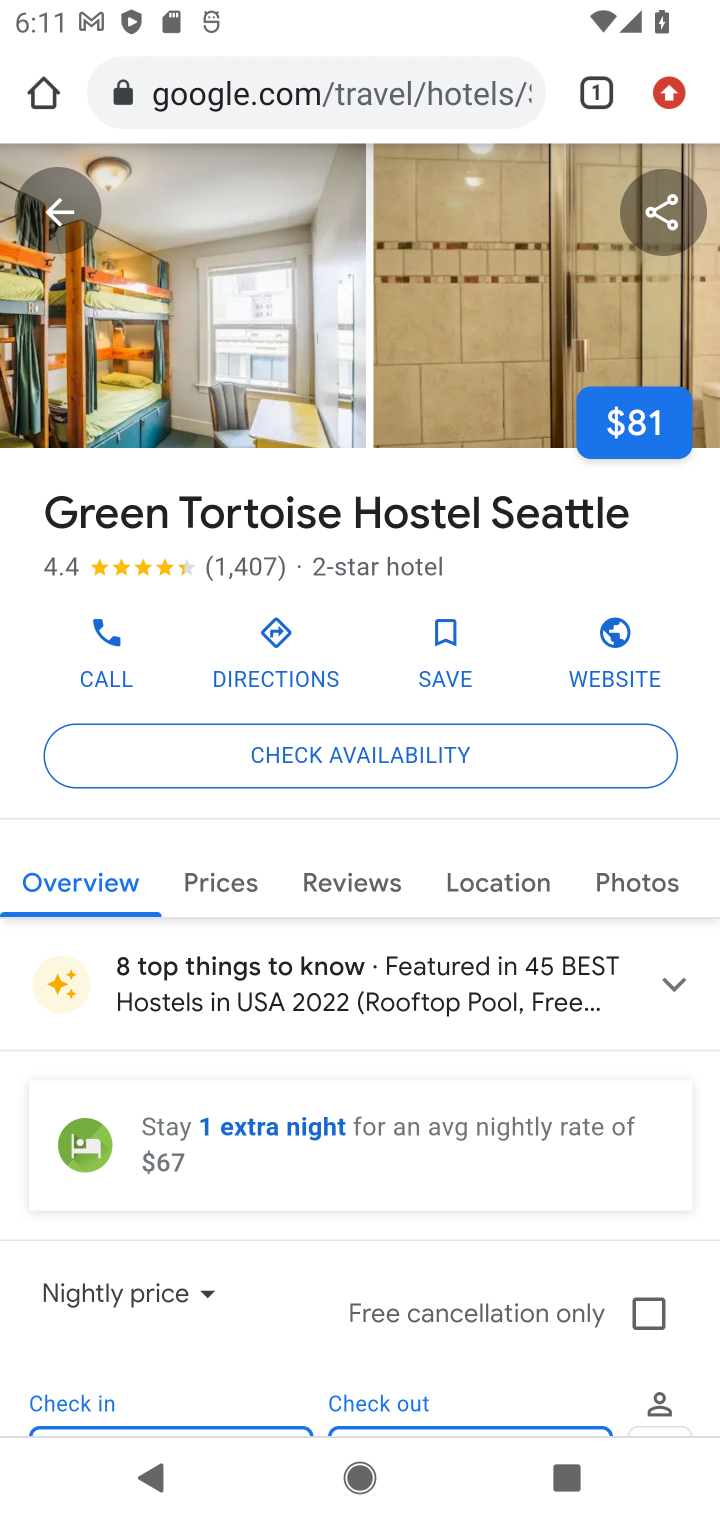
Step 26: drag from (422, 376) to (224, 369)
Your task to perform on an android device: Search for hotels in Seattle Image 27: 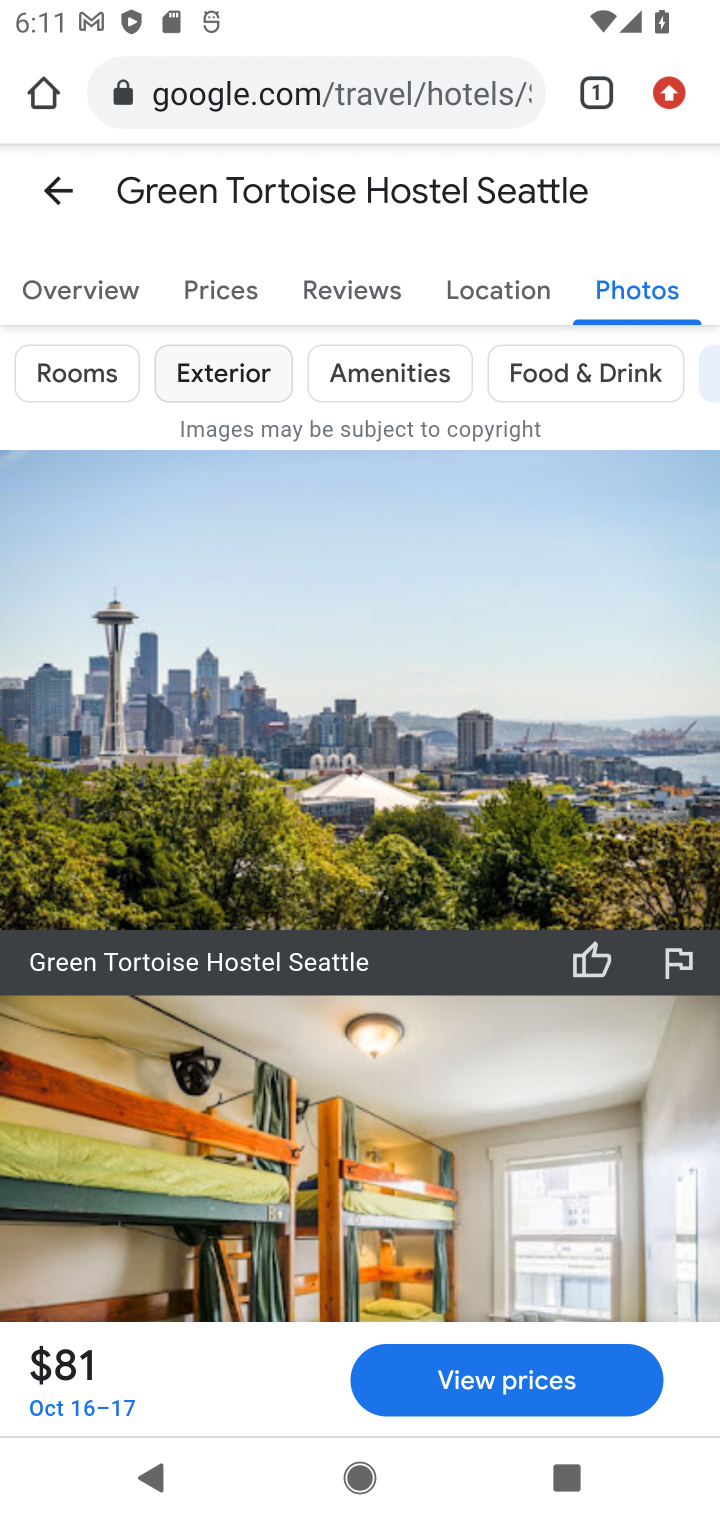
Step 27: drag from (400, 1168) to (448, 153)
Your task to perform on an android device: Search for hotels in Seattle Image 28: 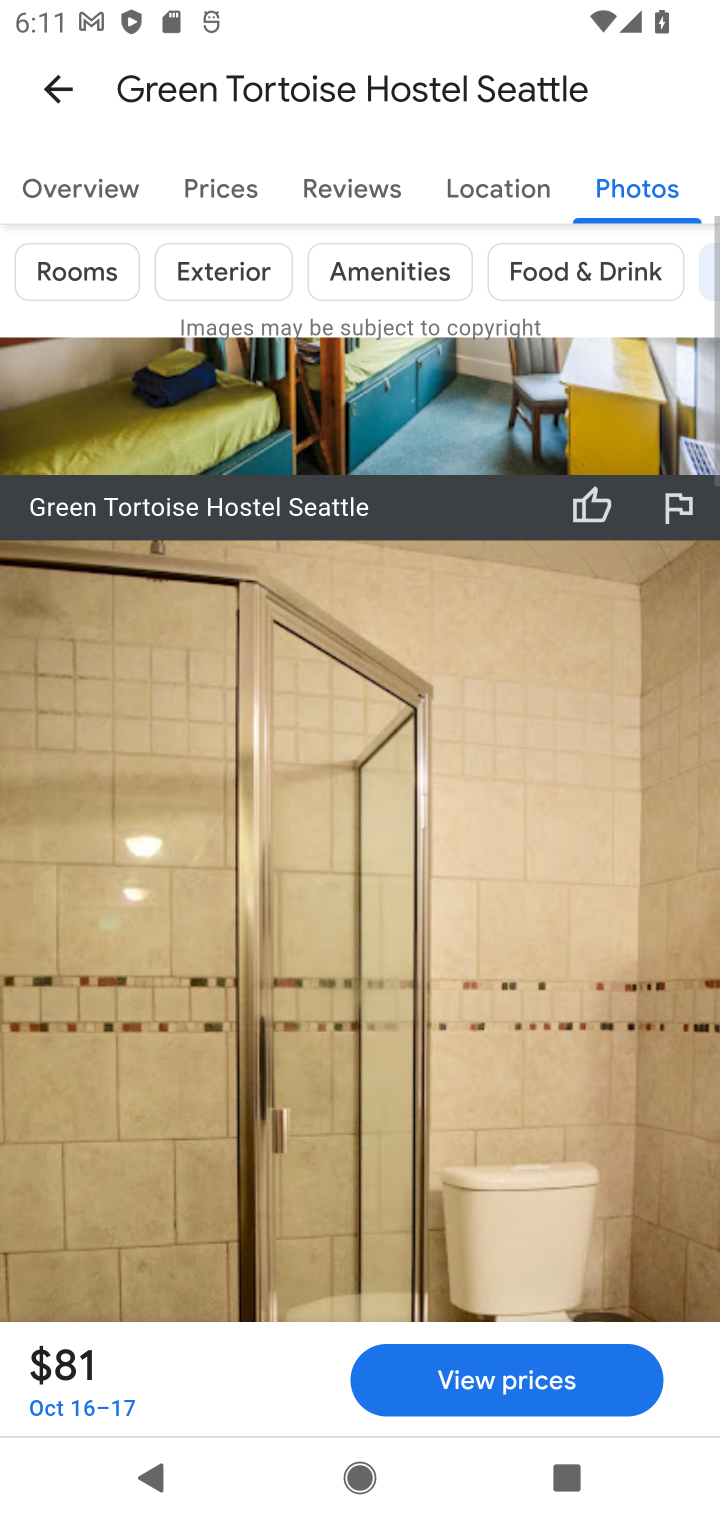
Step 28: drag from (515, 754) to (321, 1109)
Your task to perform on an android device: Search for hotels in Seattle Image 29: 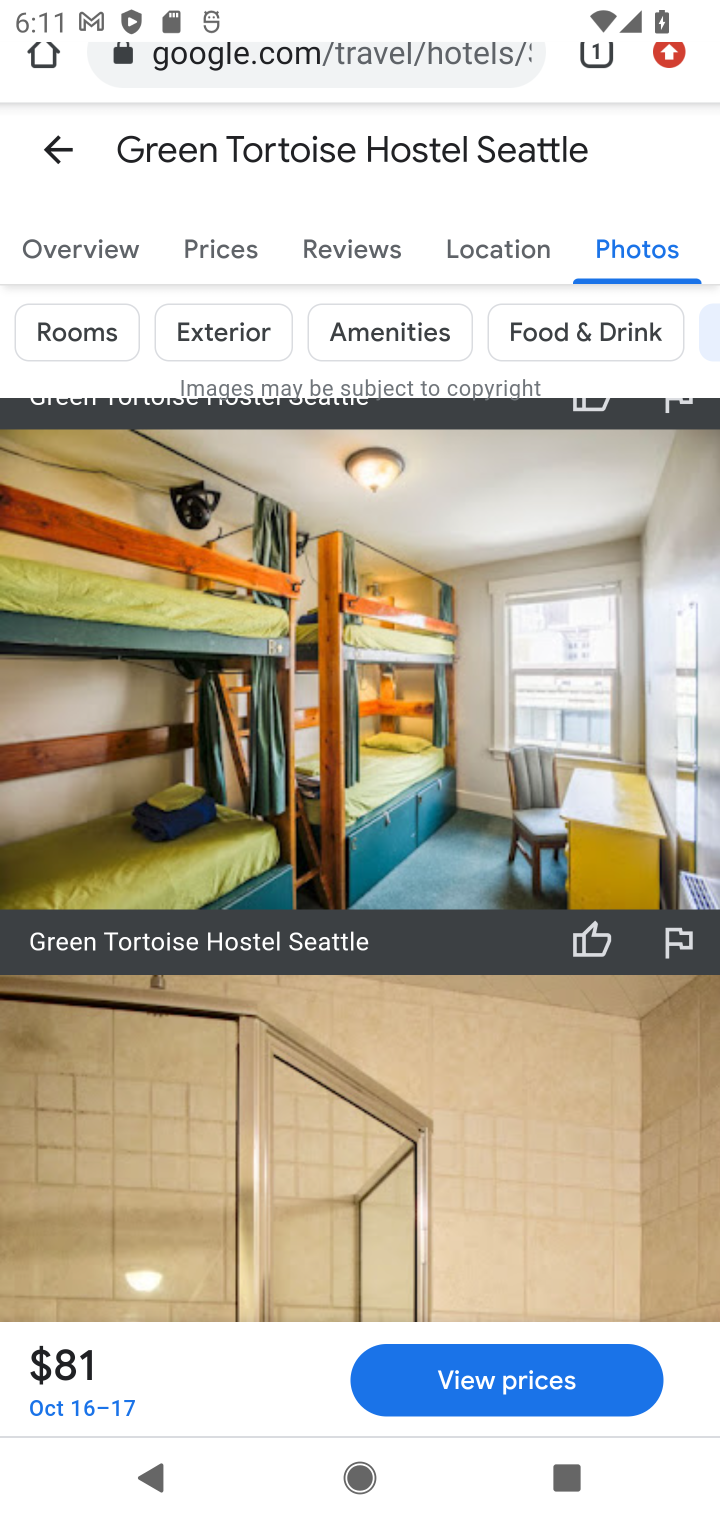
Step 29: click (72, 183)
Your task to perform on an android device: Search for hotels in Seattle Image 30: 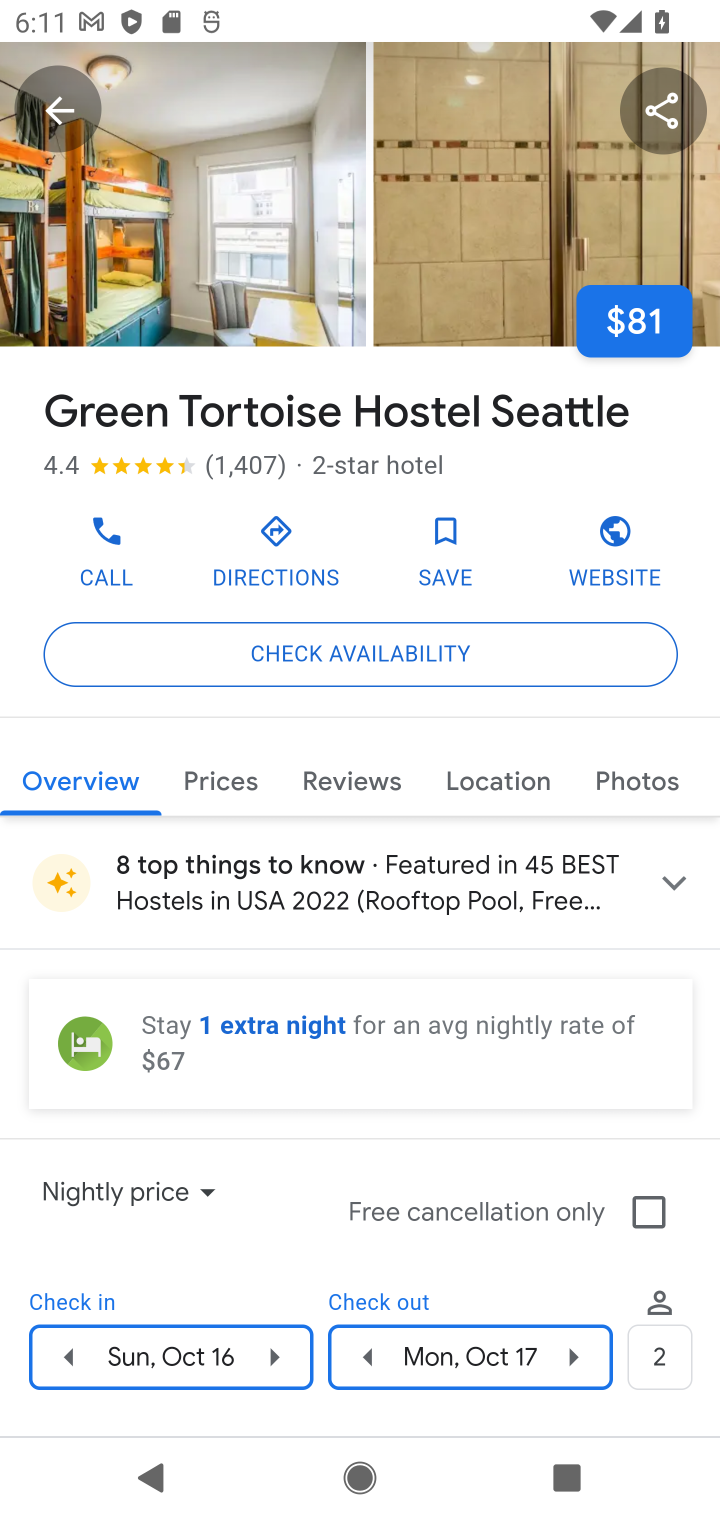
Step 30: click (62, 113)
Your task to perform on an android device: Search for hotels in Seattle Image 31: 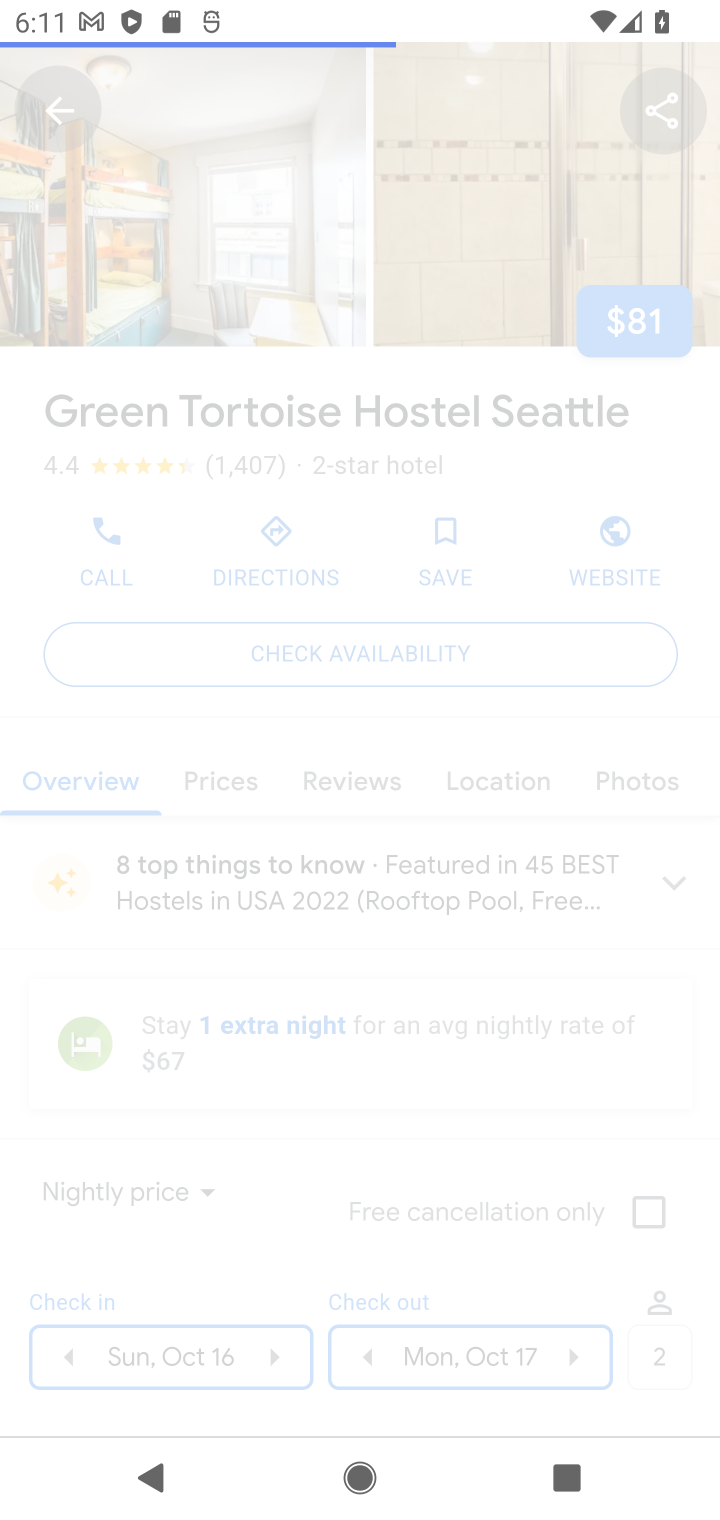
Step 31: drag from (162, 253) to (248, 177)
Your task to perform on an android device: Search for hotels in Seattle Image 32: 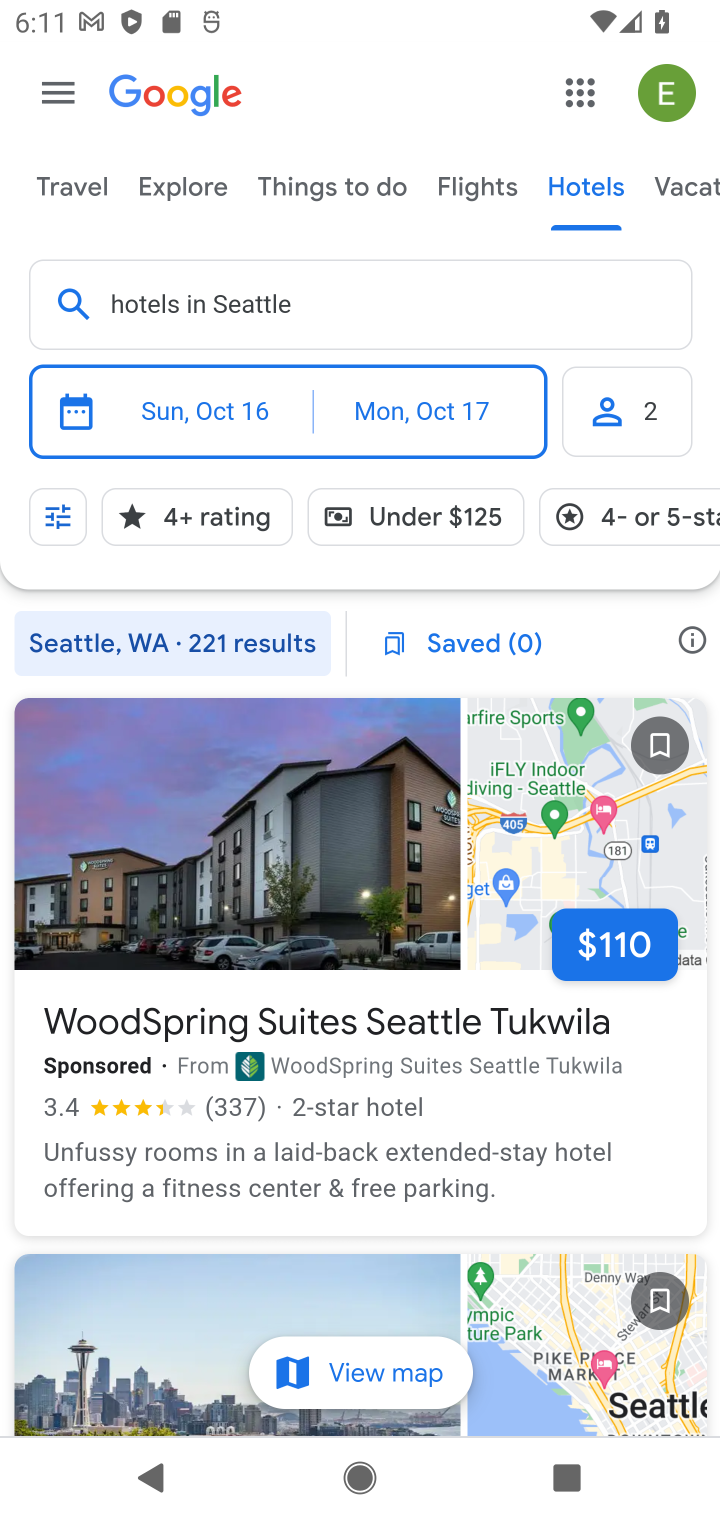
Step 32: drag from (296, 955) to (373, 337)
Your task to perform on an android device: Search for hotels in Seattle Image 33: 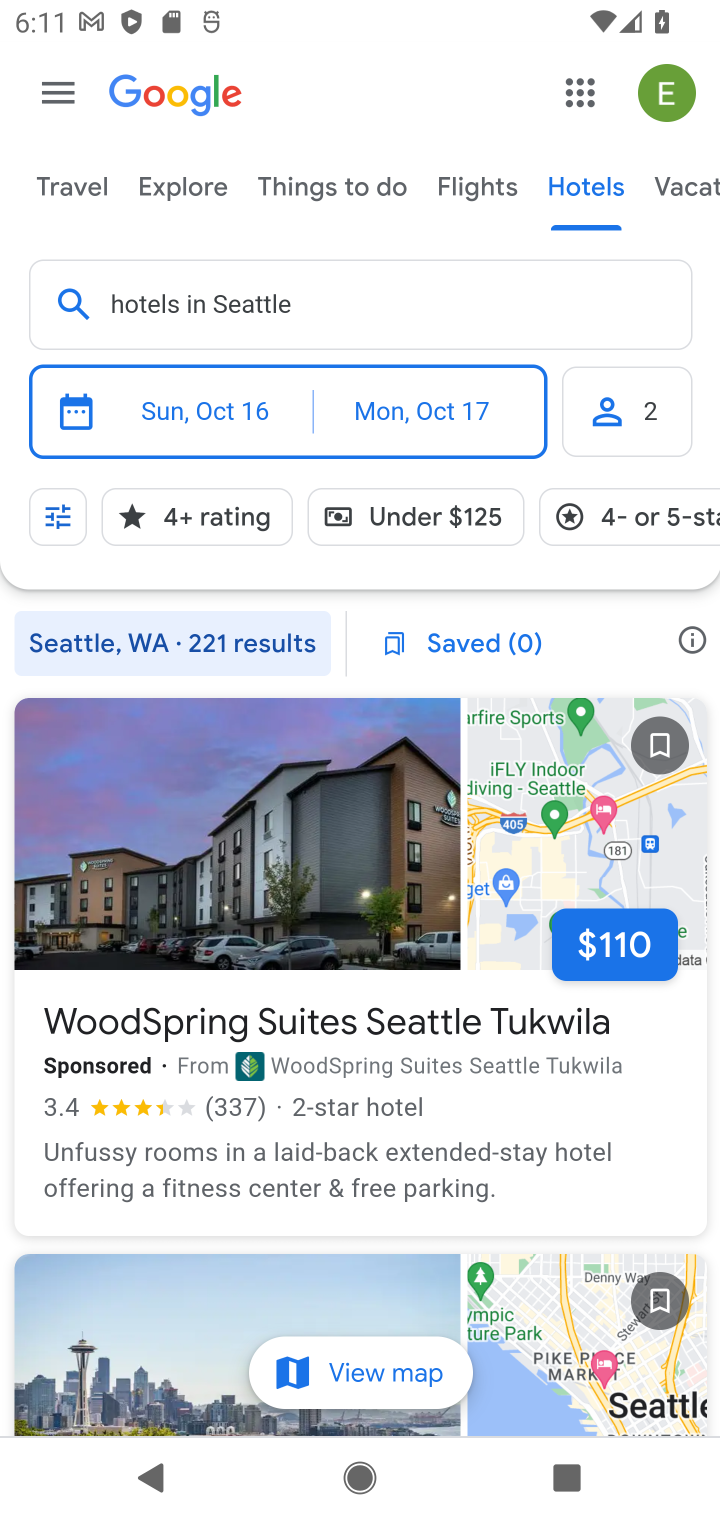
Step 33: drag from (524, 397) to (594, 199)
Your task to perform on an android device: Search for hotels in Seattle Image 34: 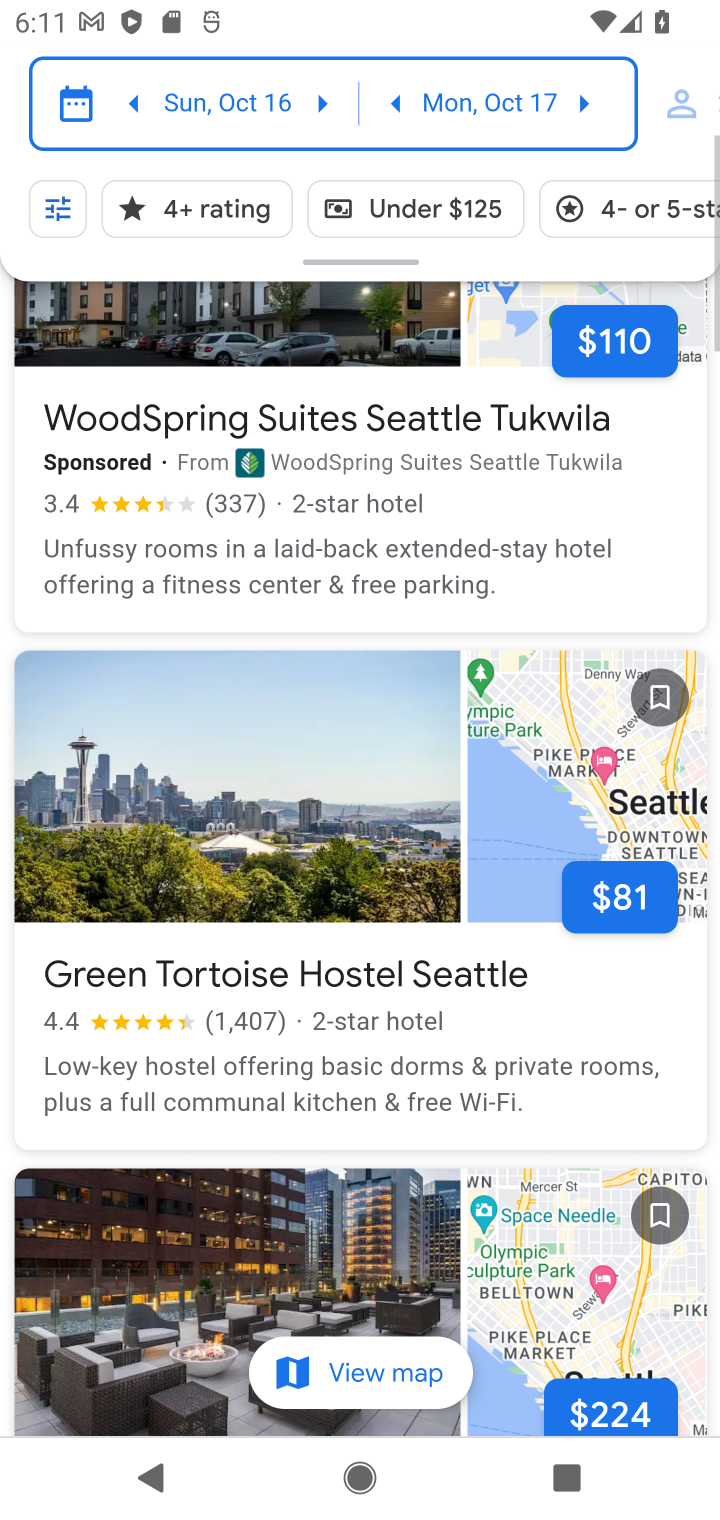
Step 34: drag from (539, 366) to (573, 543)
Your task to perform on an android device: Search for hotels in Seattle Image 35: 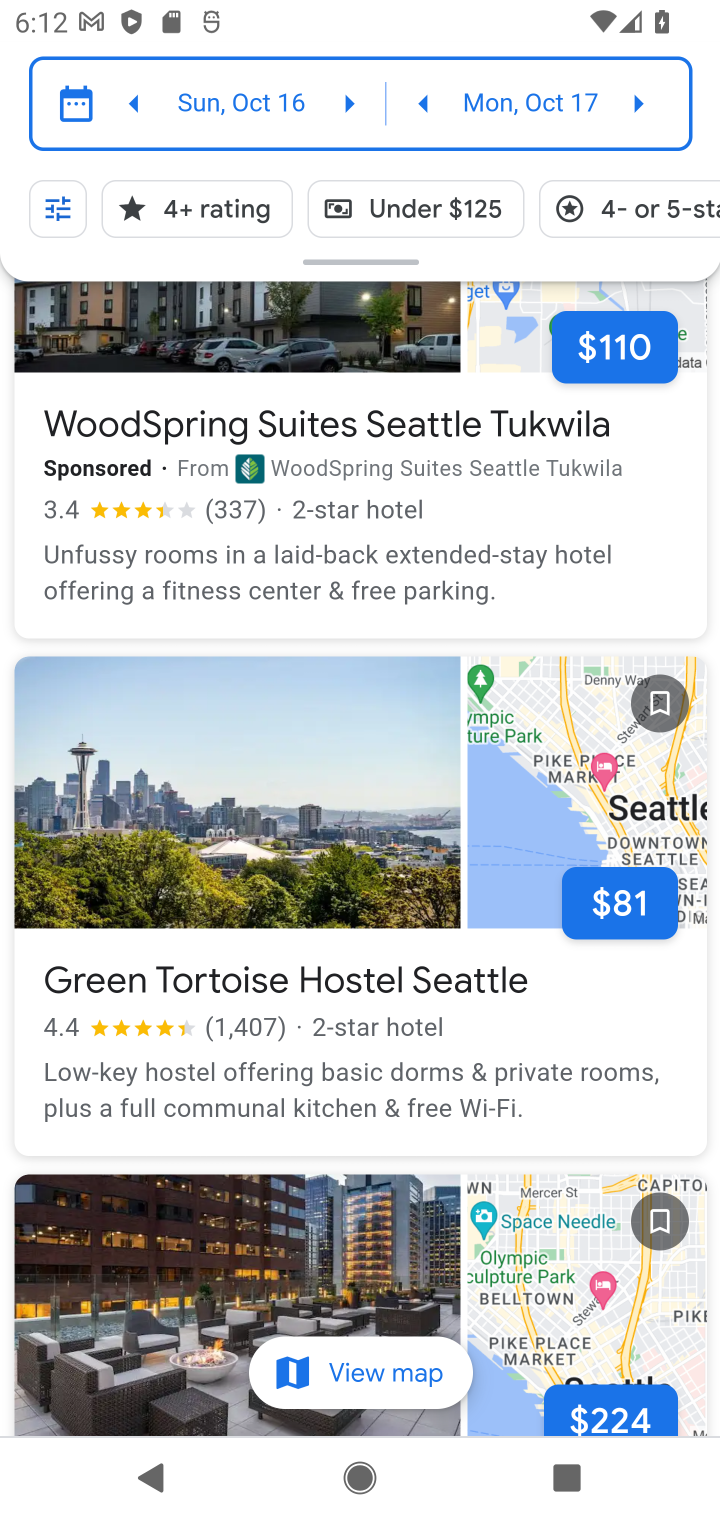
Step 35: click (150, 967)
Your task to perform on an android device: Search for hotels in Seattle Image 36: 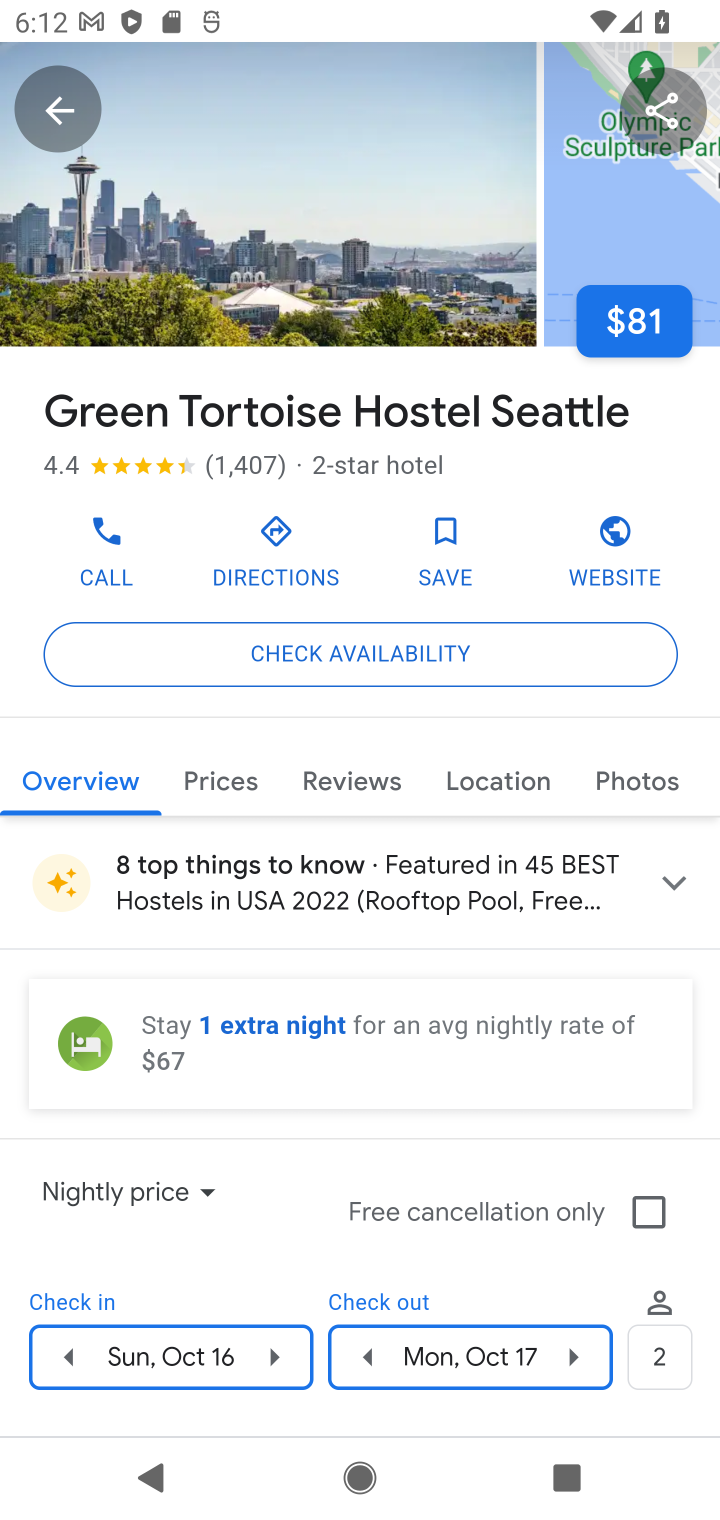
Step 36: click (398, 257)
Your task to perform on an android device: Search for hotels in Seattle Image 37: 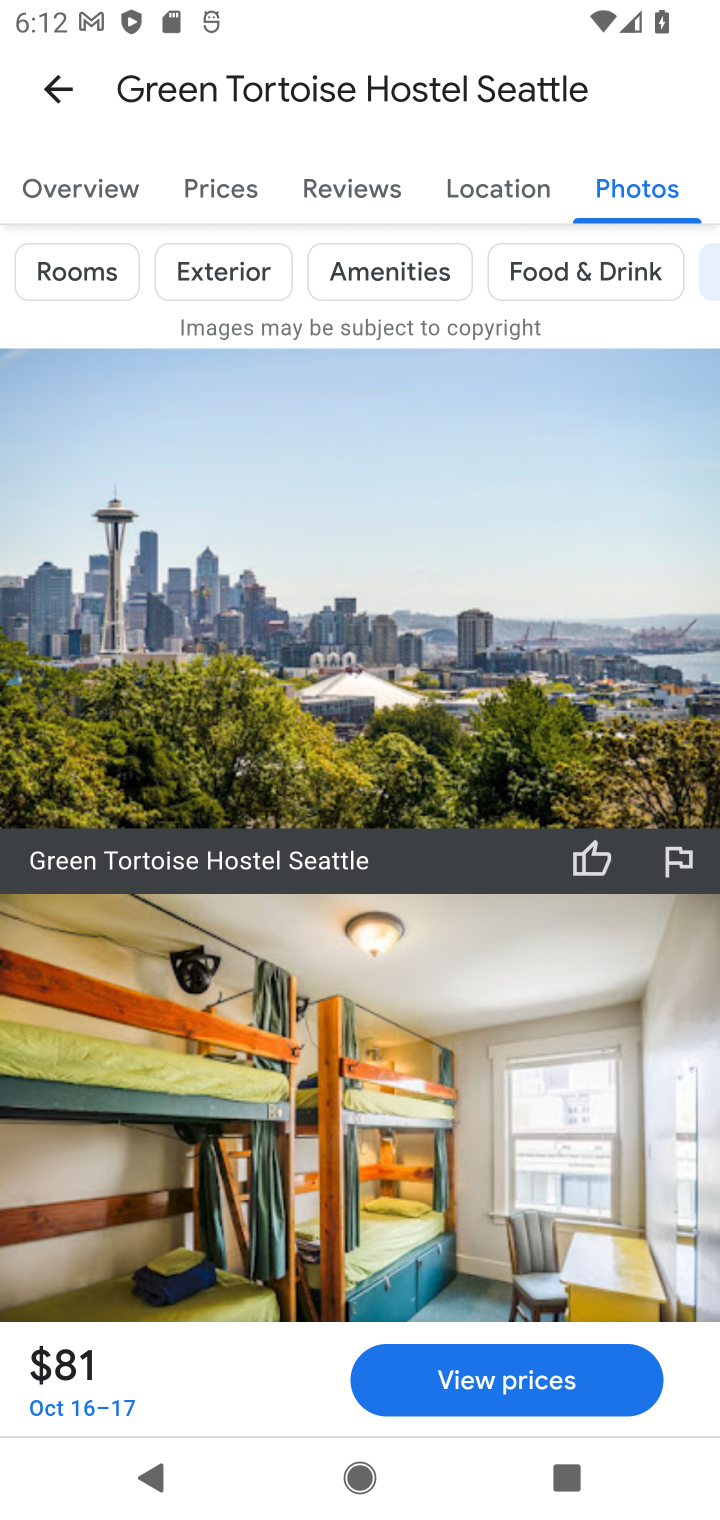
Step 37: drag from (384, 622) to (439, 231)
Your task to perform on an android device: Search for hotels in Seattle Image 38: 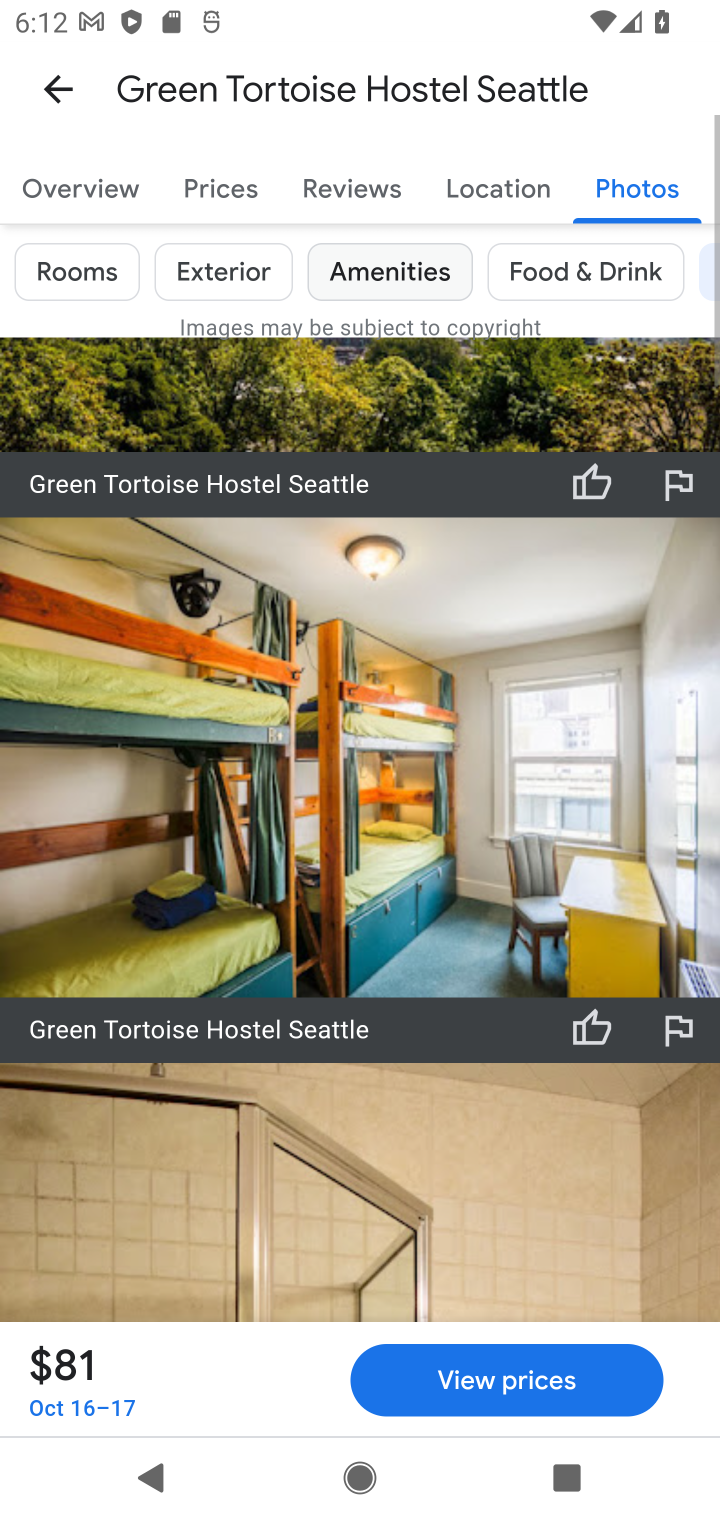
Step 38: click (64, 108)
Your task to perform on an android device: Search for hotels in Seattle Image 39: 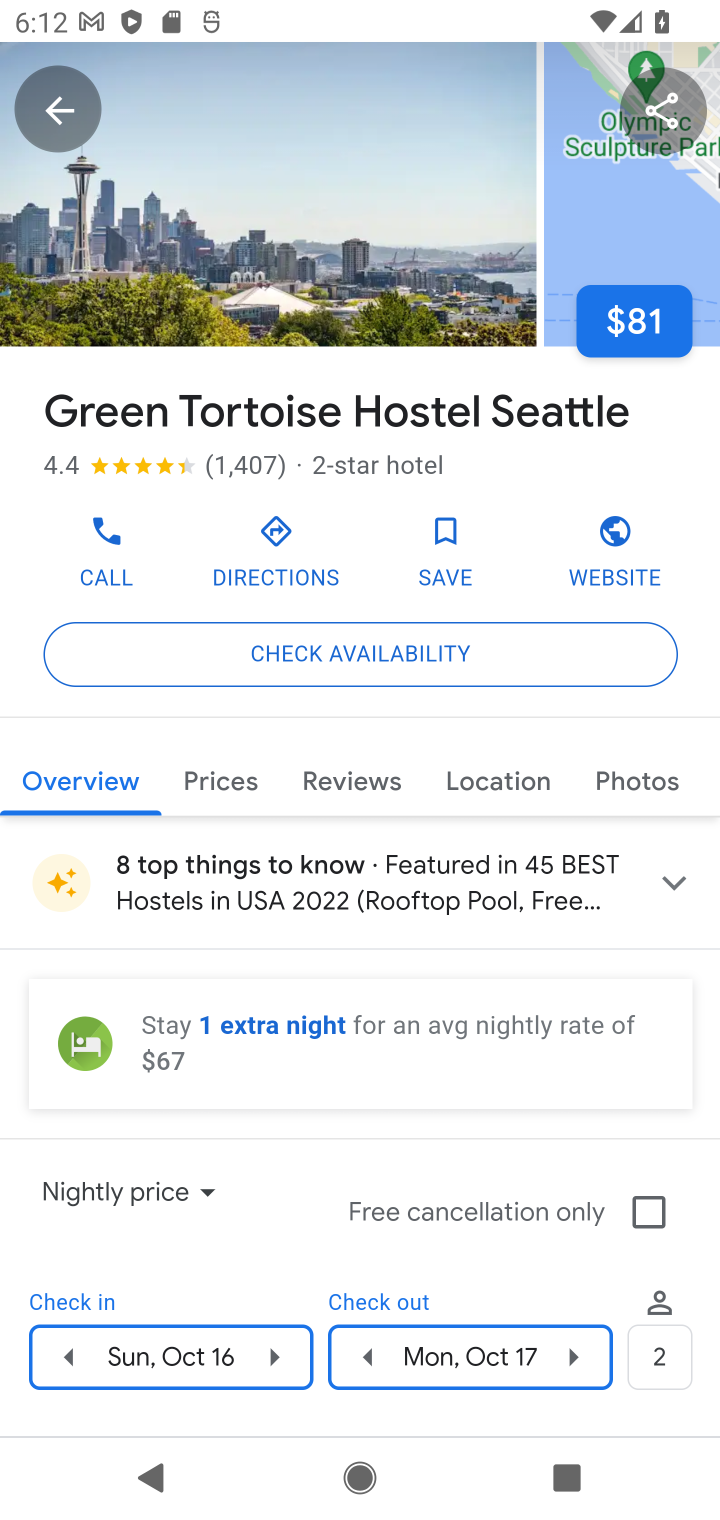
Step 39: task complete